Your task to perform on an android device: Play the latest video from the Wall Street Journal Image 0: 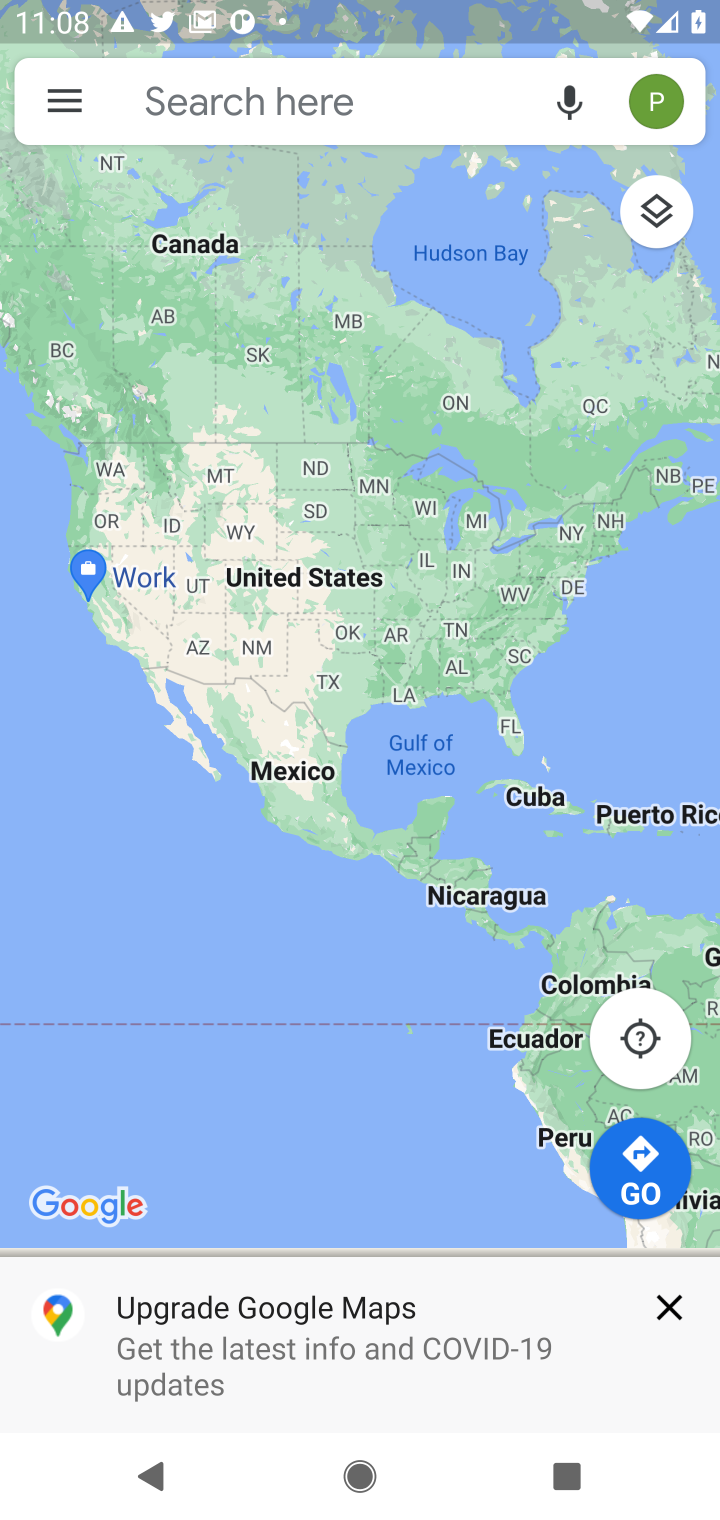
Step 0: press home button
Your task to perform on an android device: Play the latest video from the Wall Street Journal Image 1: 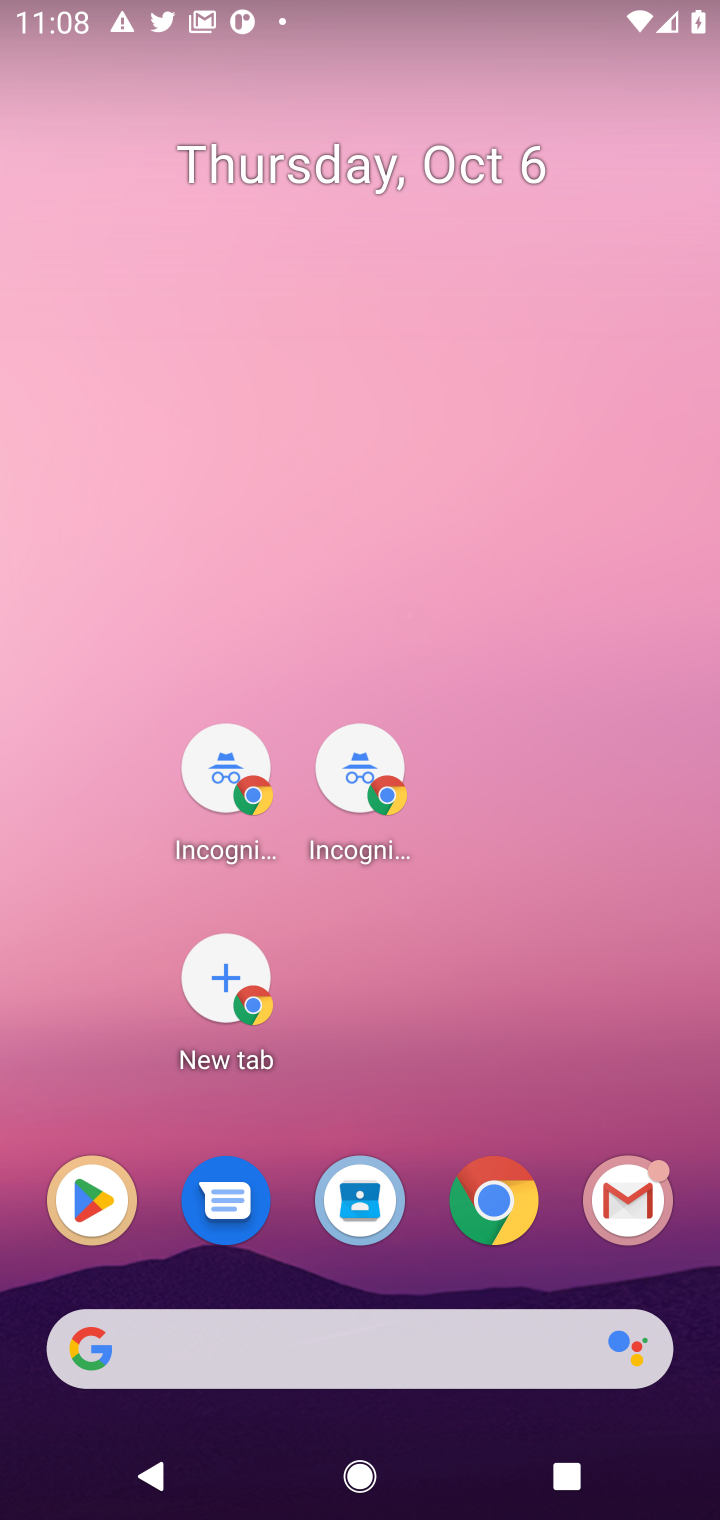
Step 1: click (479, 1209)
Your task to perform on an android device: Play the latest video from the Wall Street Journal Image 2: 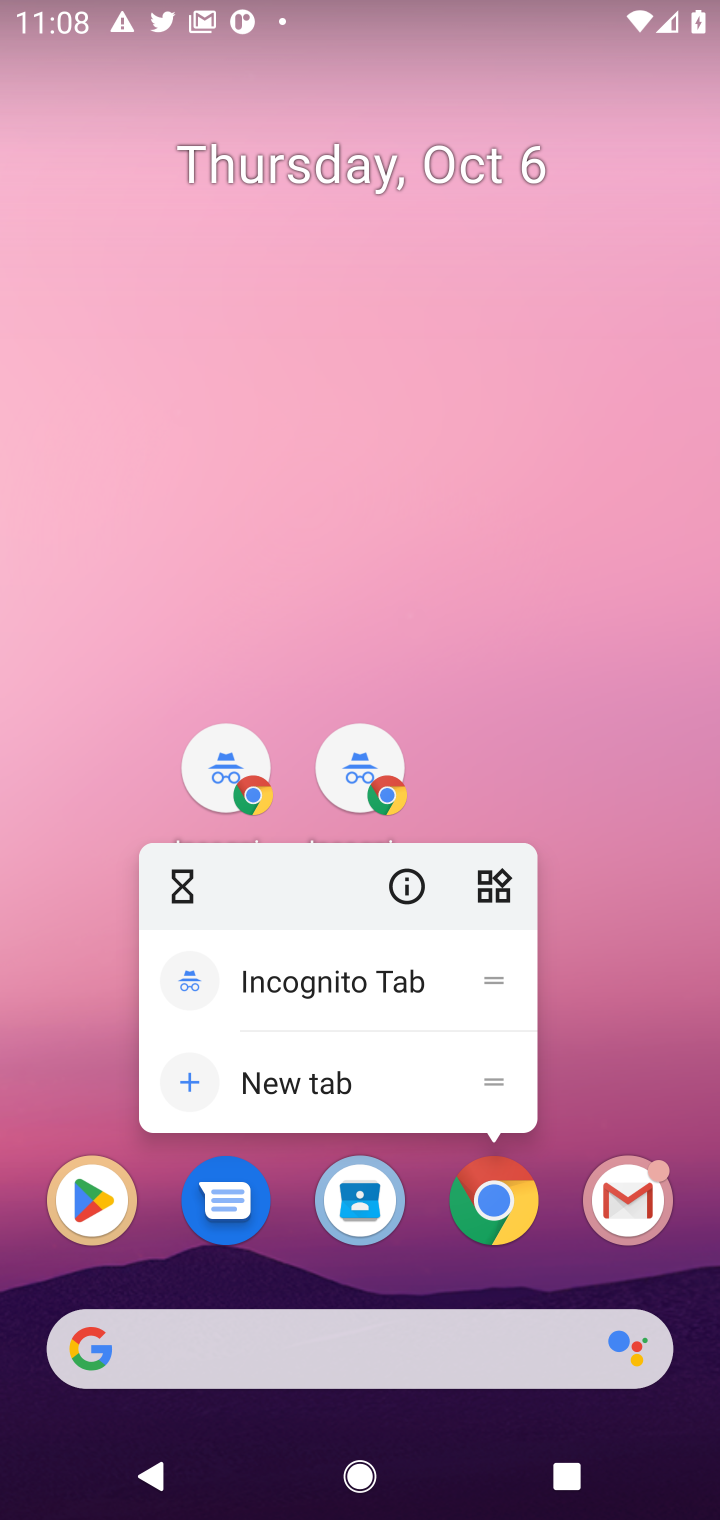
Step 2: press back button
Your task to perform on an android device: Play the latest video from the Wall Street Journal Image 3: 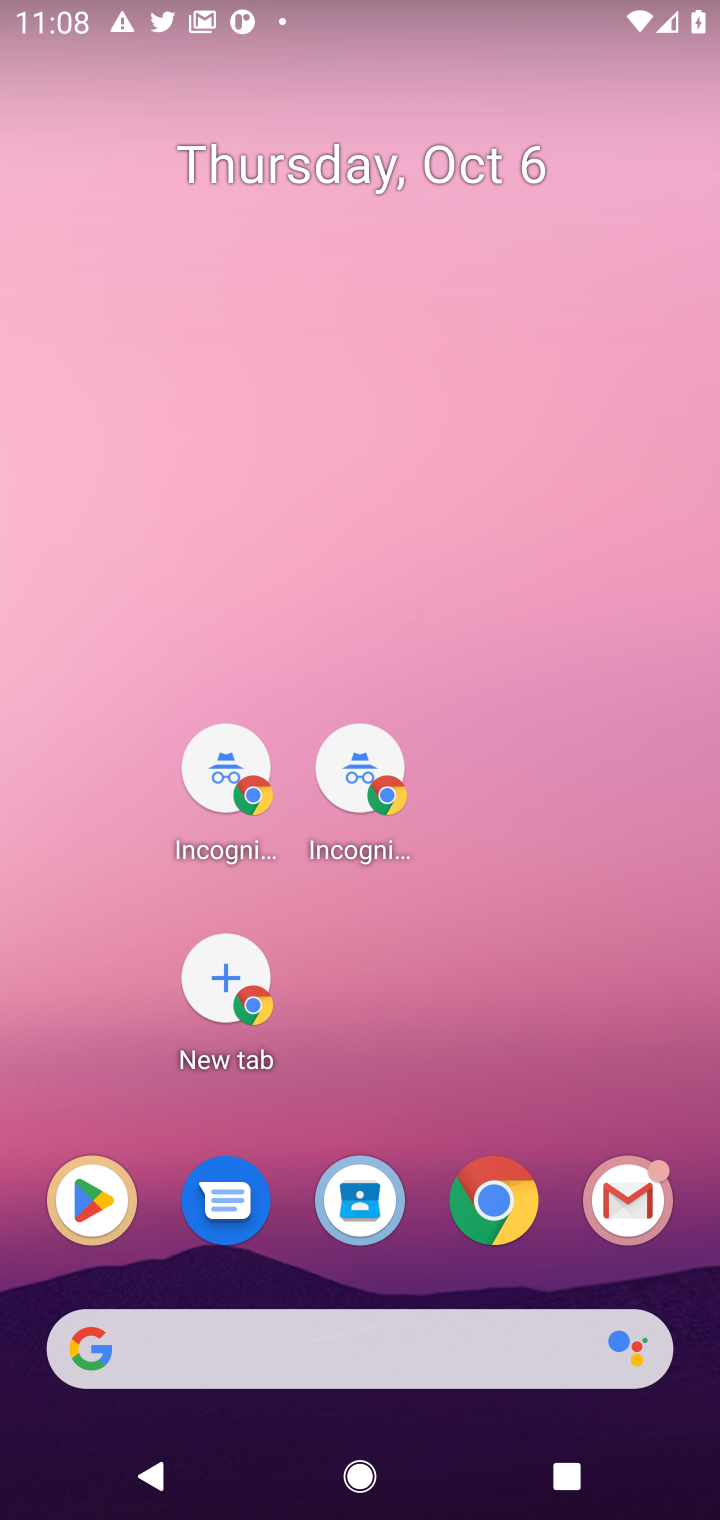
Step 3: press back button
Your task to perform on an android device: Play the latest video from the Wall Street Journal Image 4: 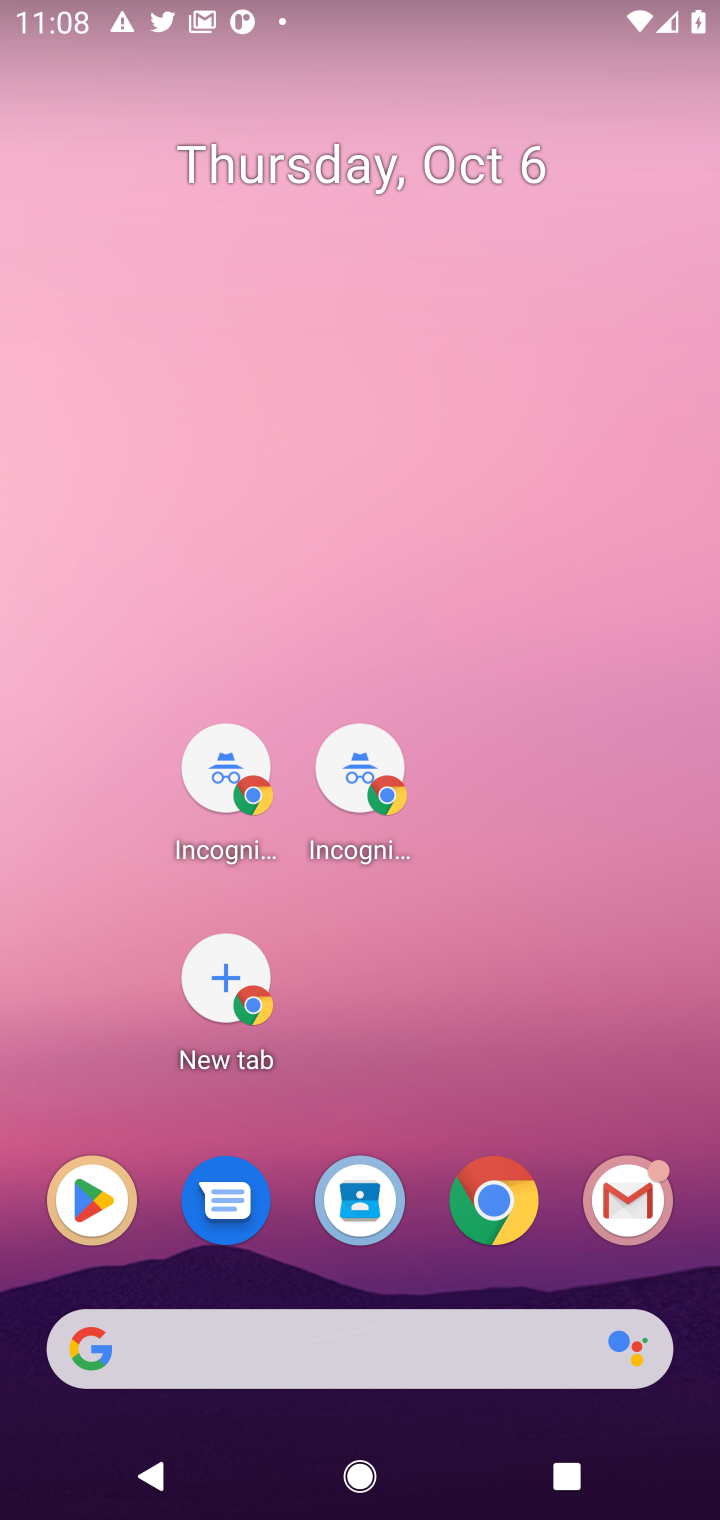
Step 4: press home button
Your task to perform on an android device: Play the latest video from the Wall Street Journal Image 5: 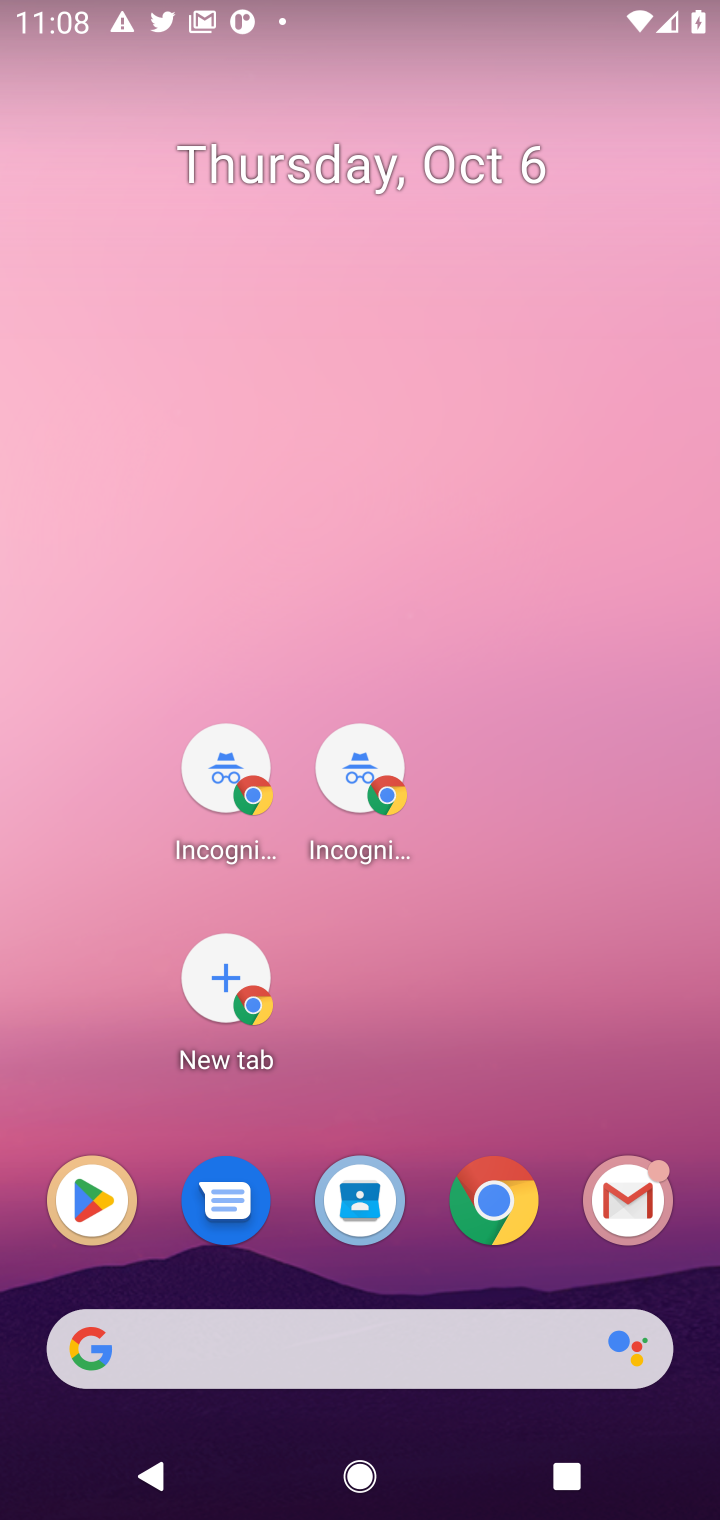
Step 5: click (517, 1223)
Your task to perform on an android device: Play the latest video from the Wall Street Journal Image 6: 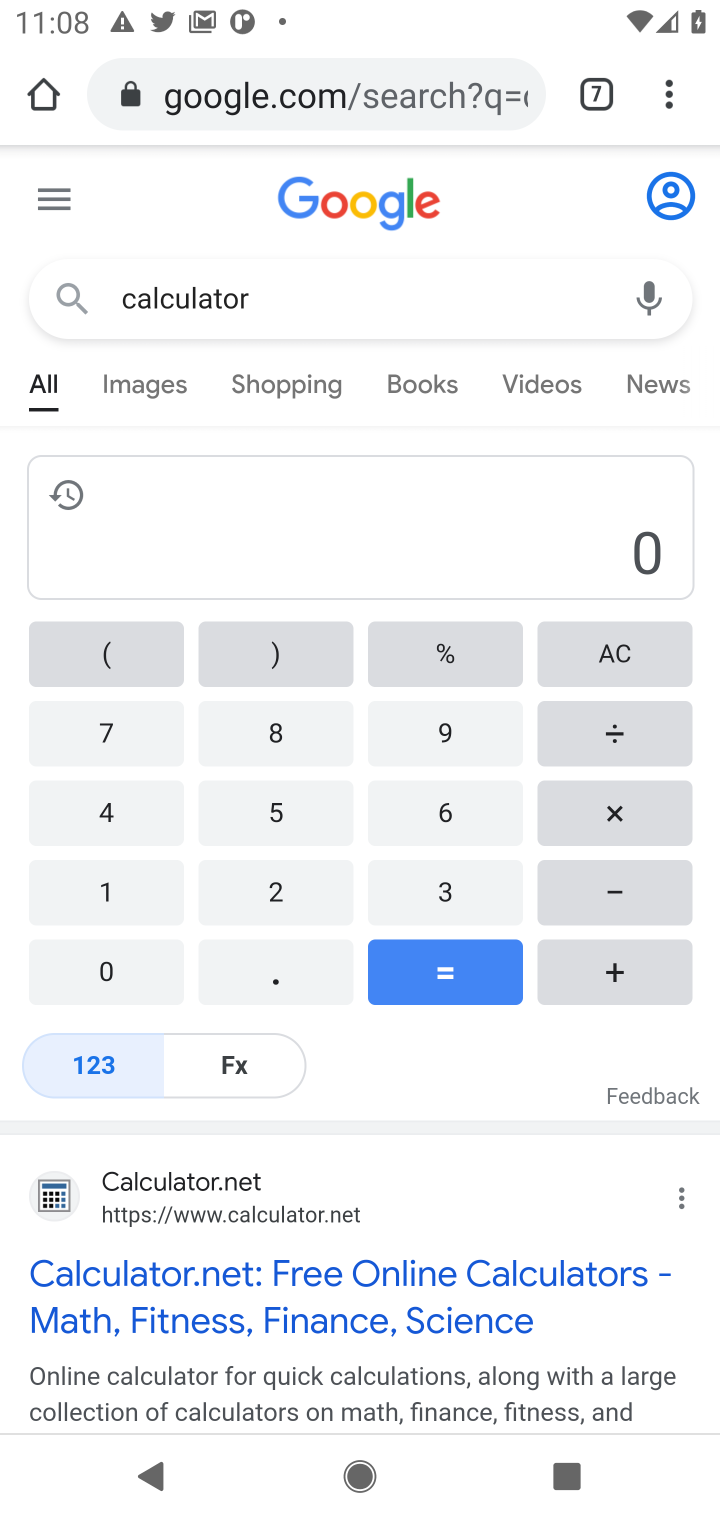
Step 6: click (402, 86)
Your task to perform on an android device: Play the latest video from the Wall Street Journal Image 7: 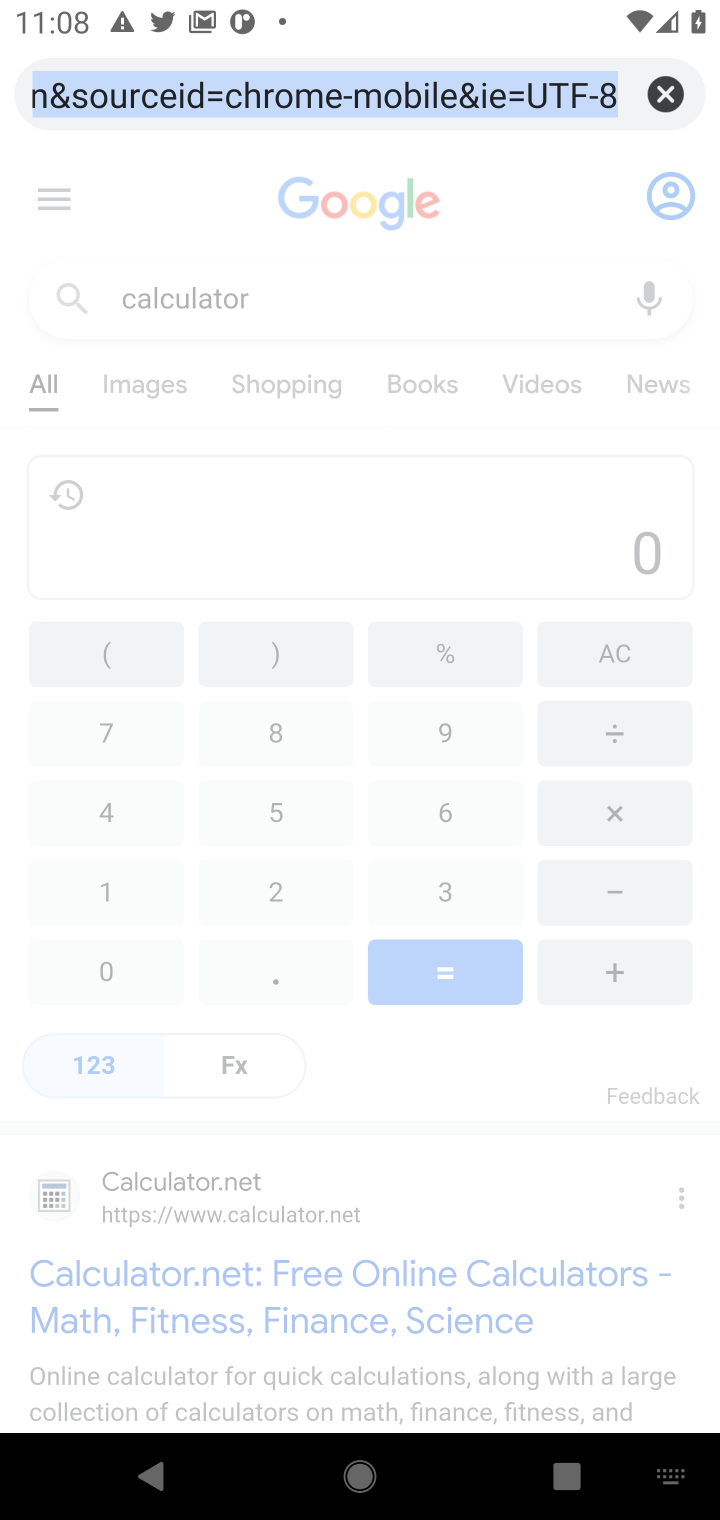
Step 7: click (657, 92)
Your task to perform on an android device: Play the latest video from the Wall Street Journal Image 8: 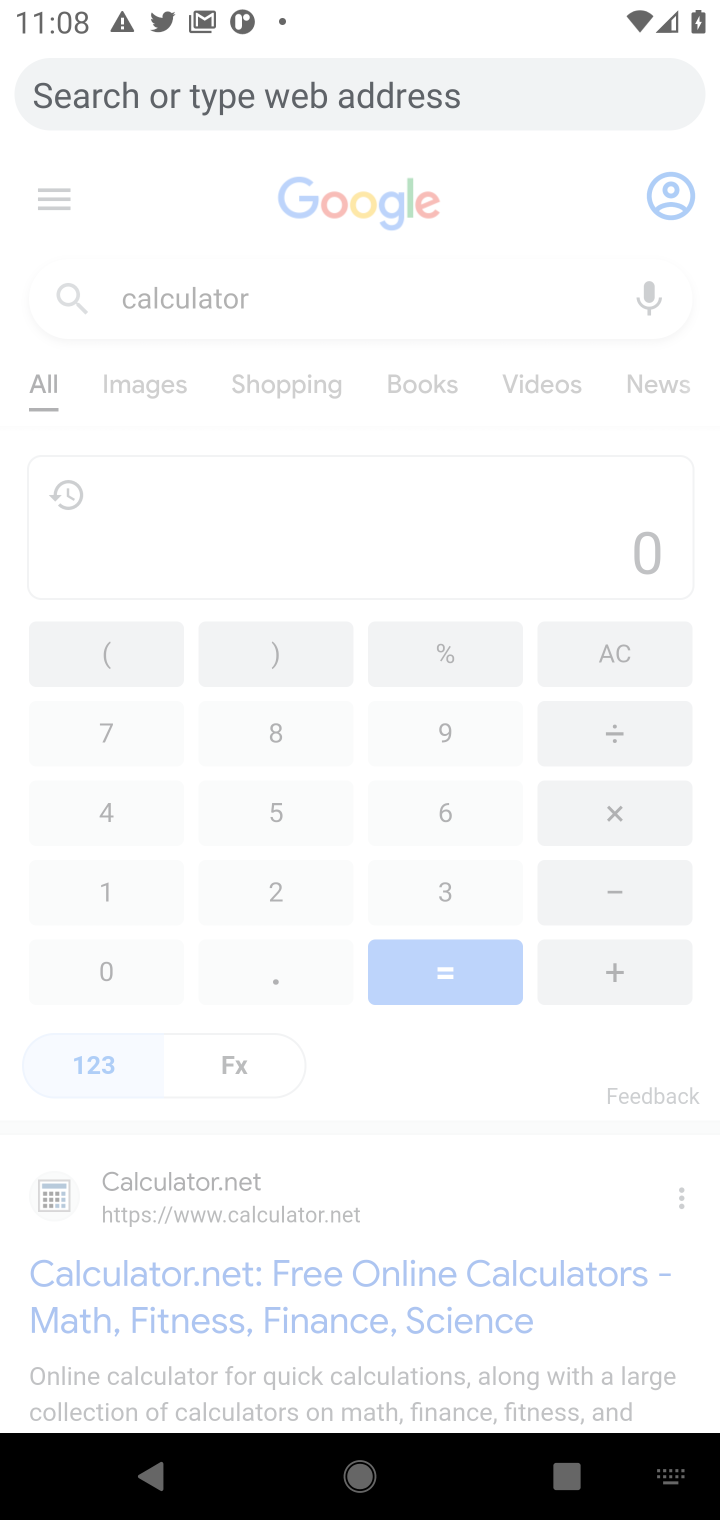
Step 8: type "wall street journal"
Your task to perform on an android device: Play the latest video from the Wall Street Journal Image 9: 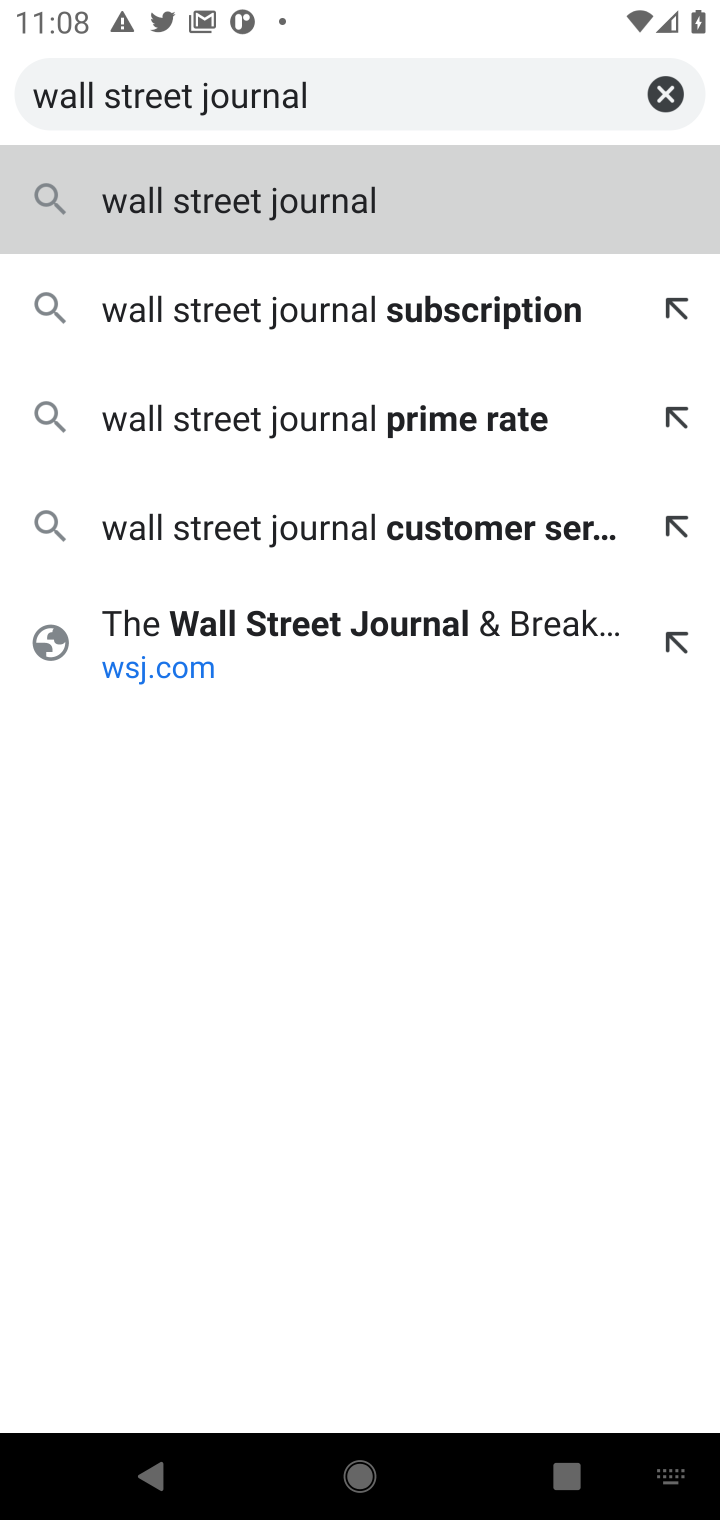
Step 9: type ""
Your task to perform on an android device: Play the latest video from the Wall Street Journal Image 10: 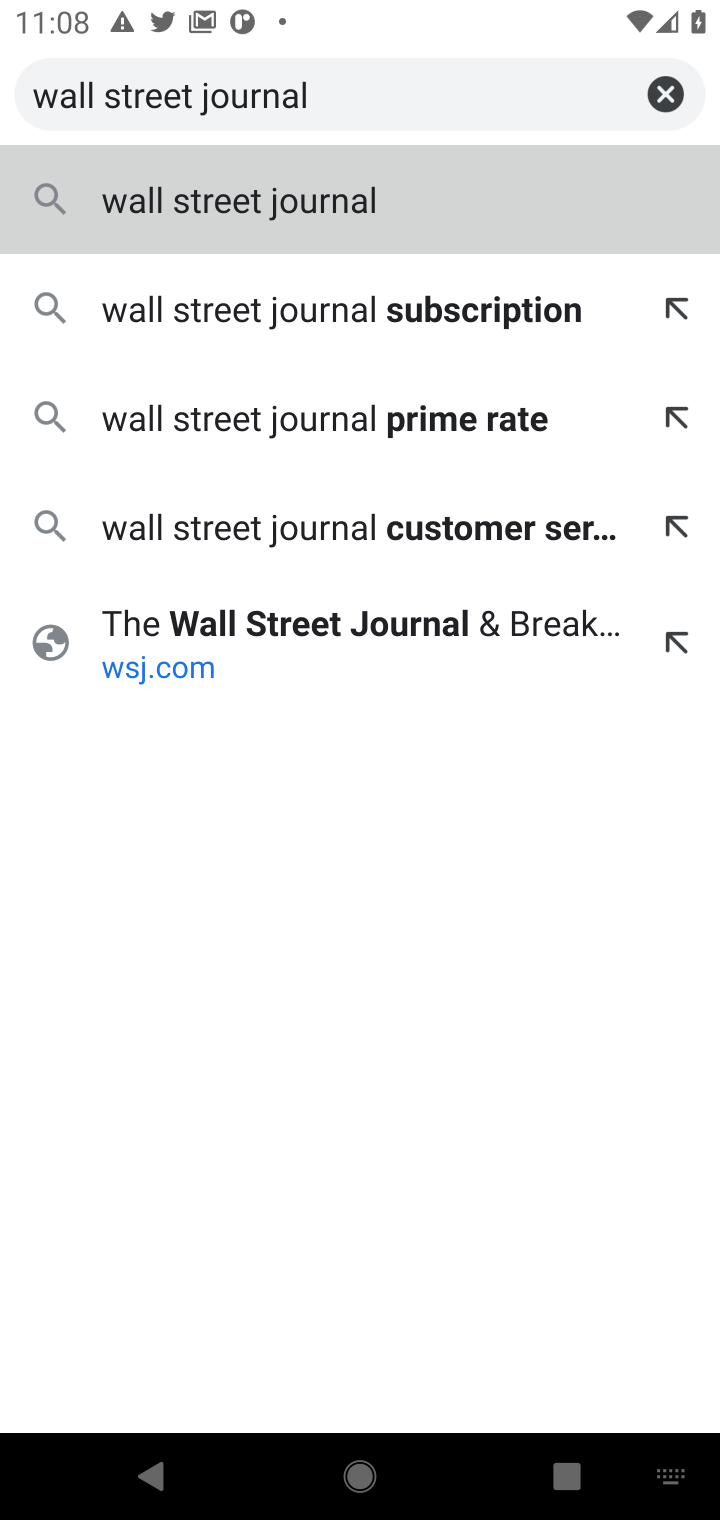
Step 10: type "wall street journal"
Your task to perform on an android device: Play the latest video from the Wall Street Journal Image 11: 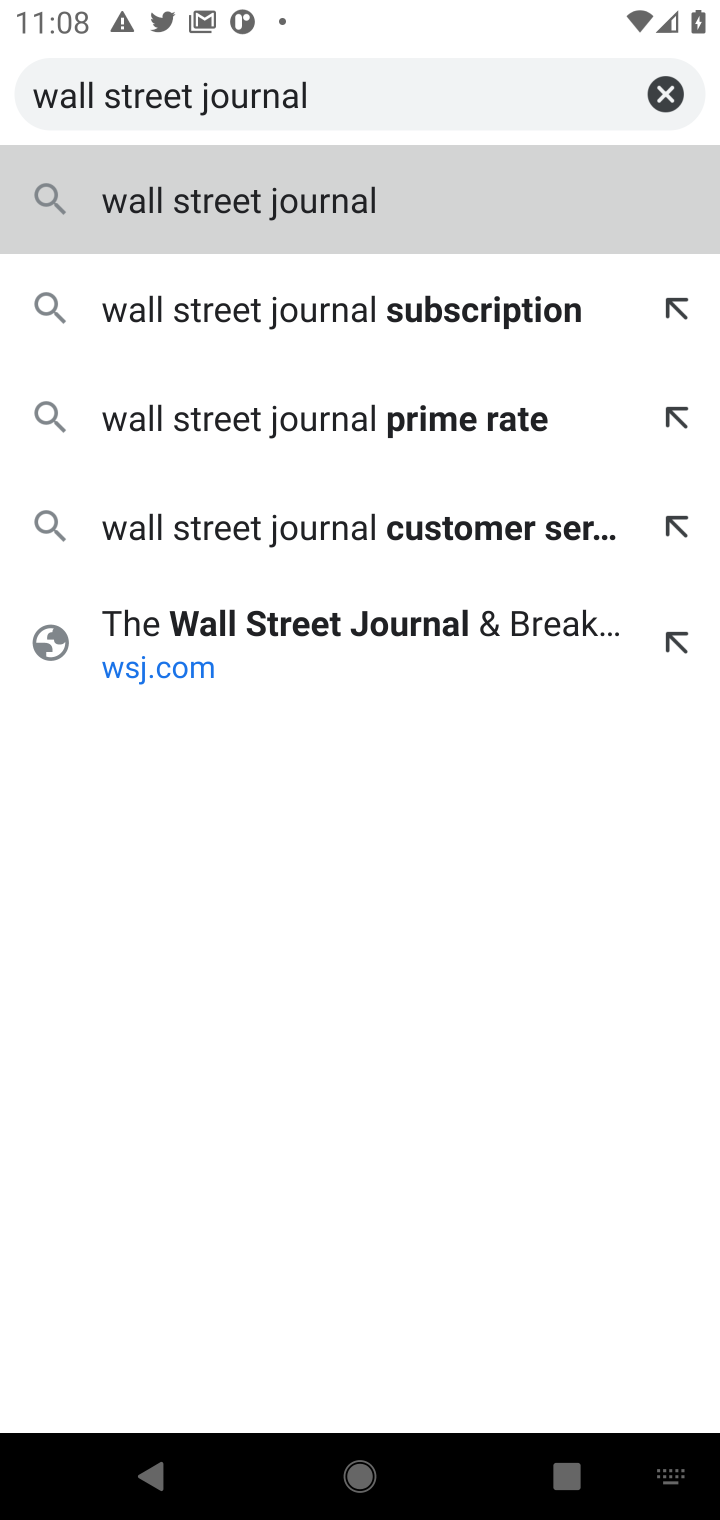
Step 11: click (235, 620)
Your task to perform on an android device: Play the latest video from the Wall Street Journal Image 12: 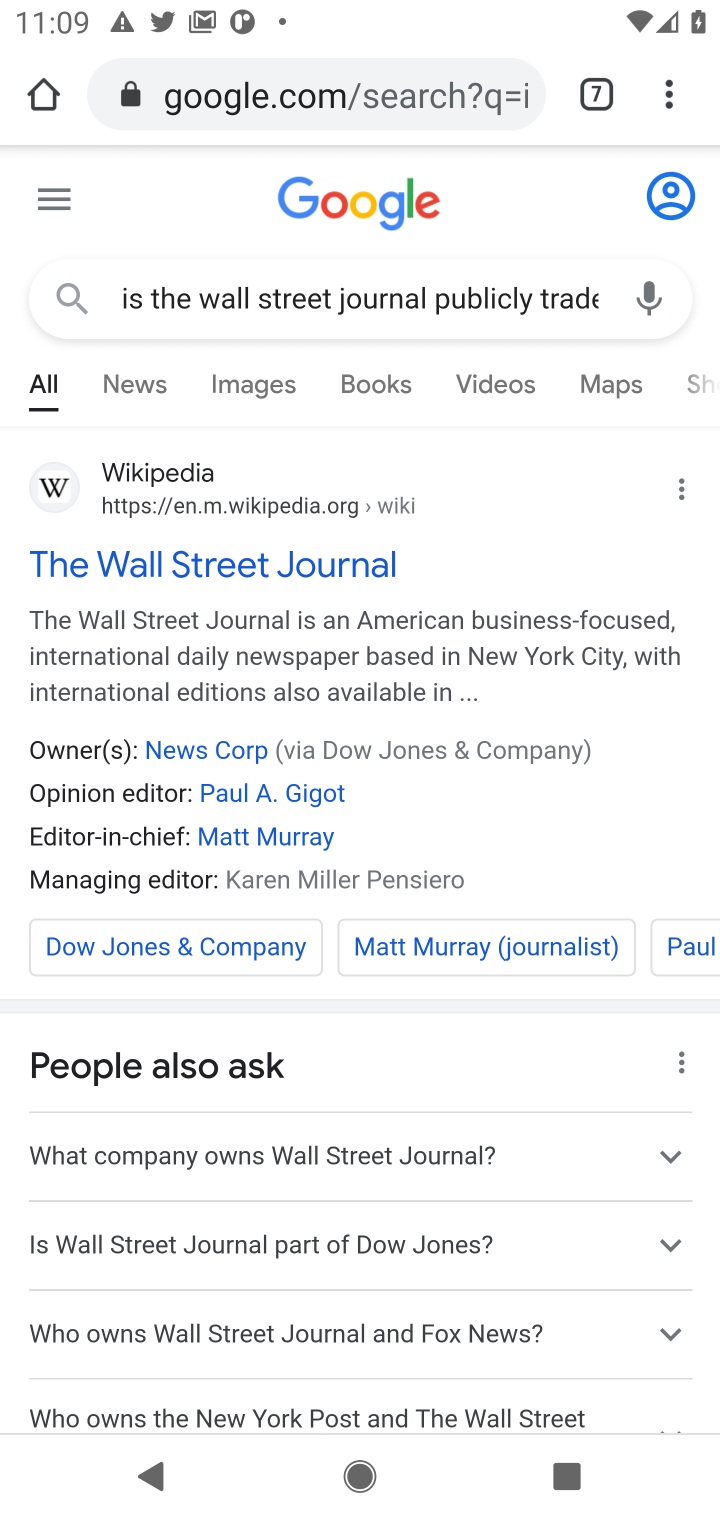
Step 12: click (149, 546)
Your task to perform on an android device: Play the latest video from the Wall Street Journal Image 13: 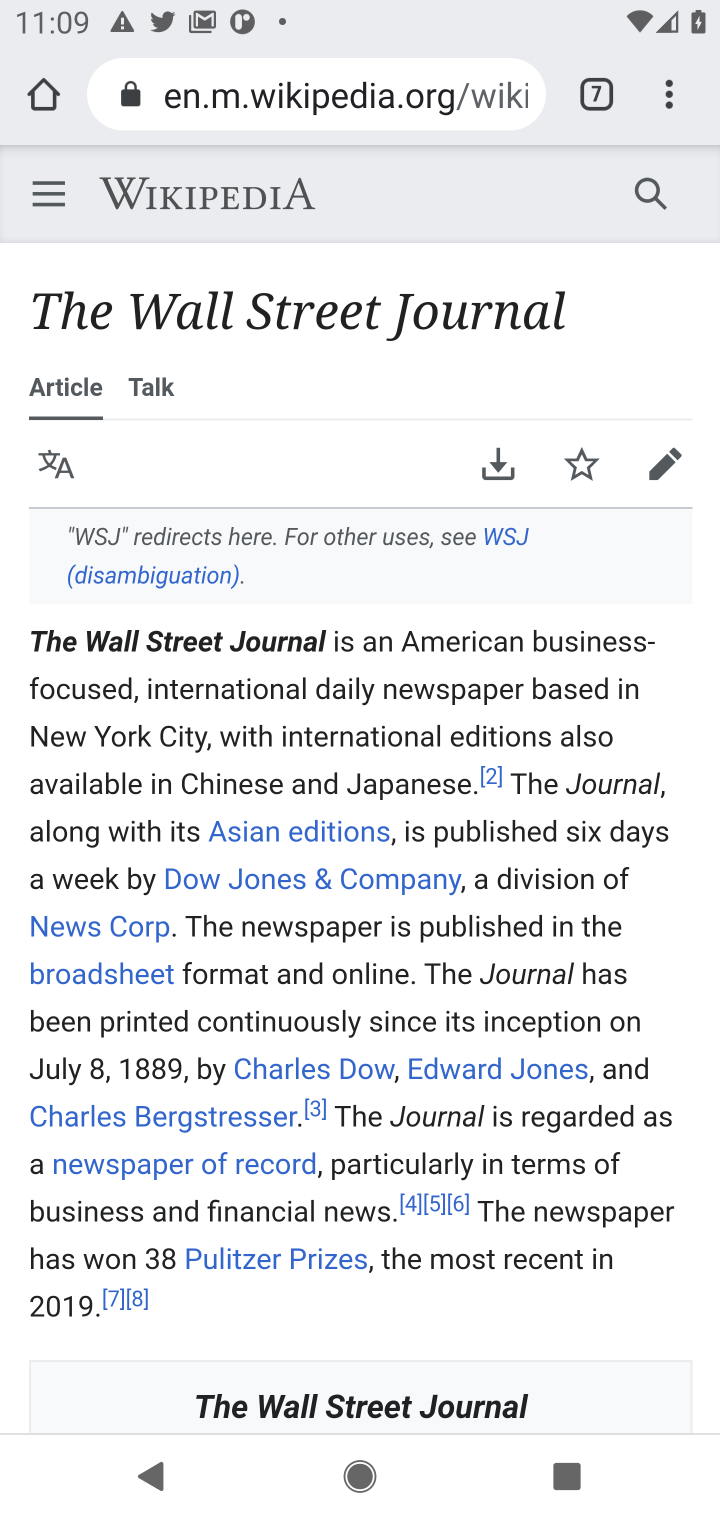
Step 13: drag from (399, 1294) to (333, 731)
Your task to perform on an android device: Play the latest video from the Wall Street Journal Image 14: 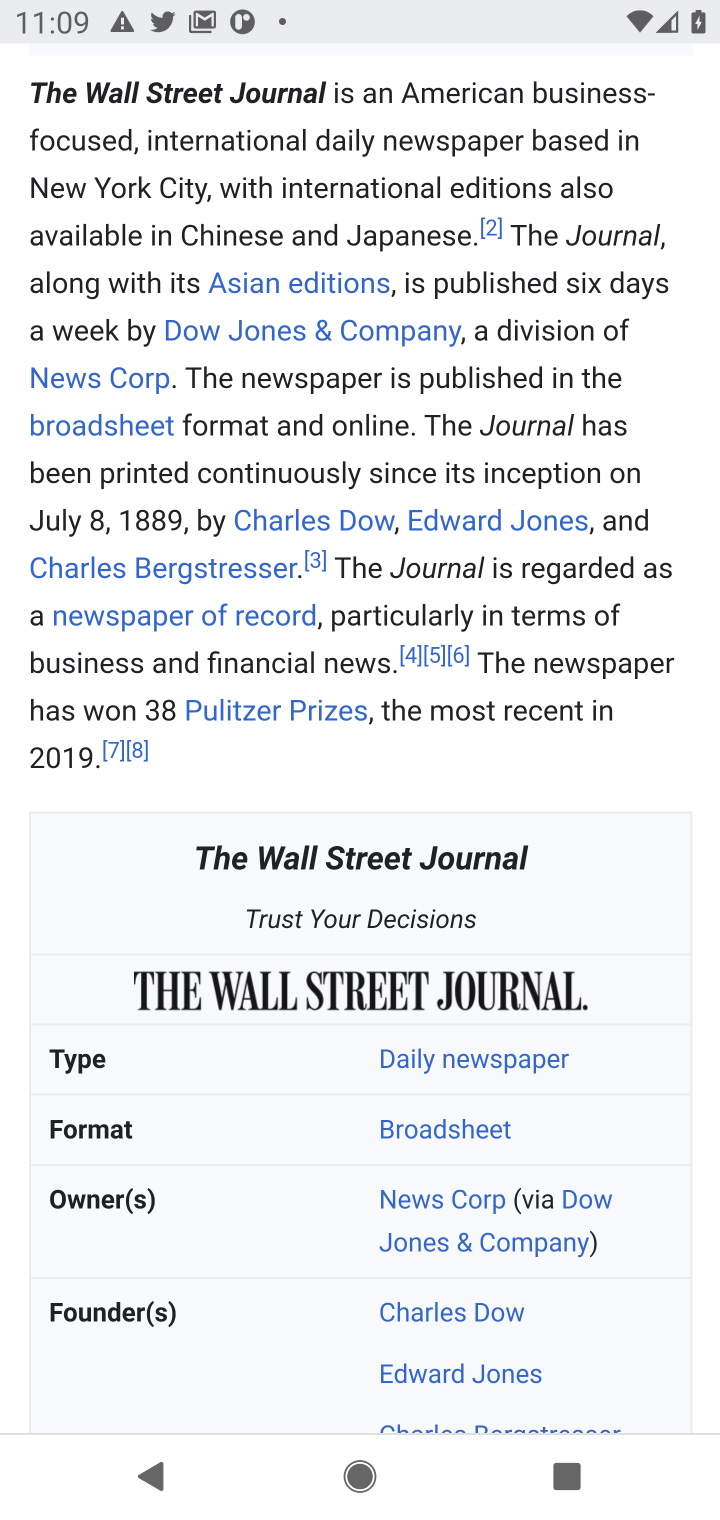
Step 14: drag from (243, 1311) to (168, 555)
Your task to perform on an android device: Play the latest video from the Wall Street Journal Image 15: 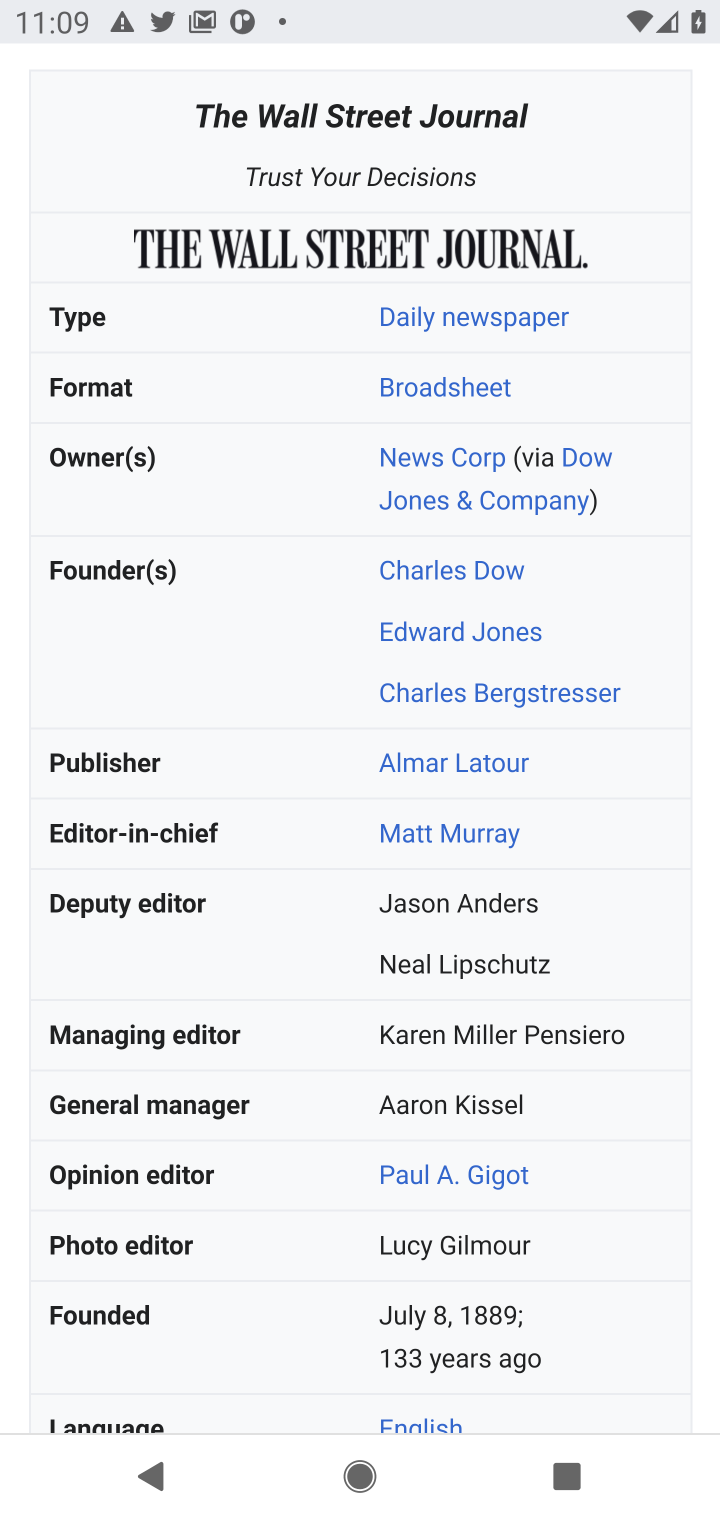
Step 15: drag from (238, 1256) to (191, 755)
Your task to perform on an android device: Play the latest video from the Wall Street Journal Image 16: 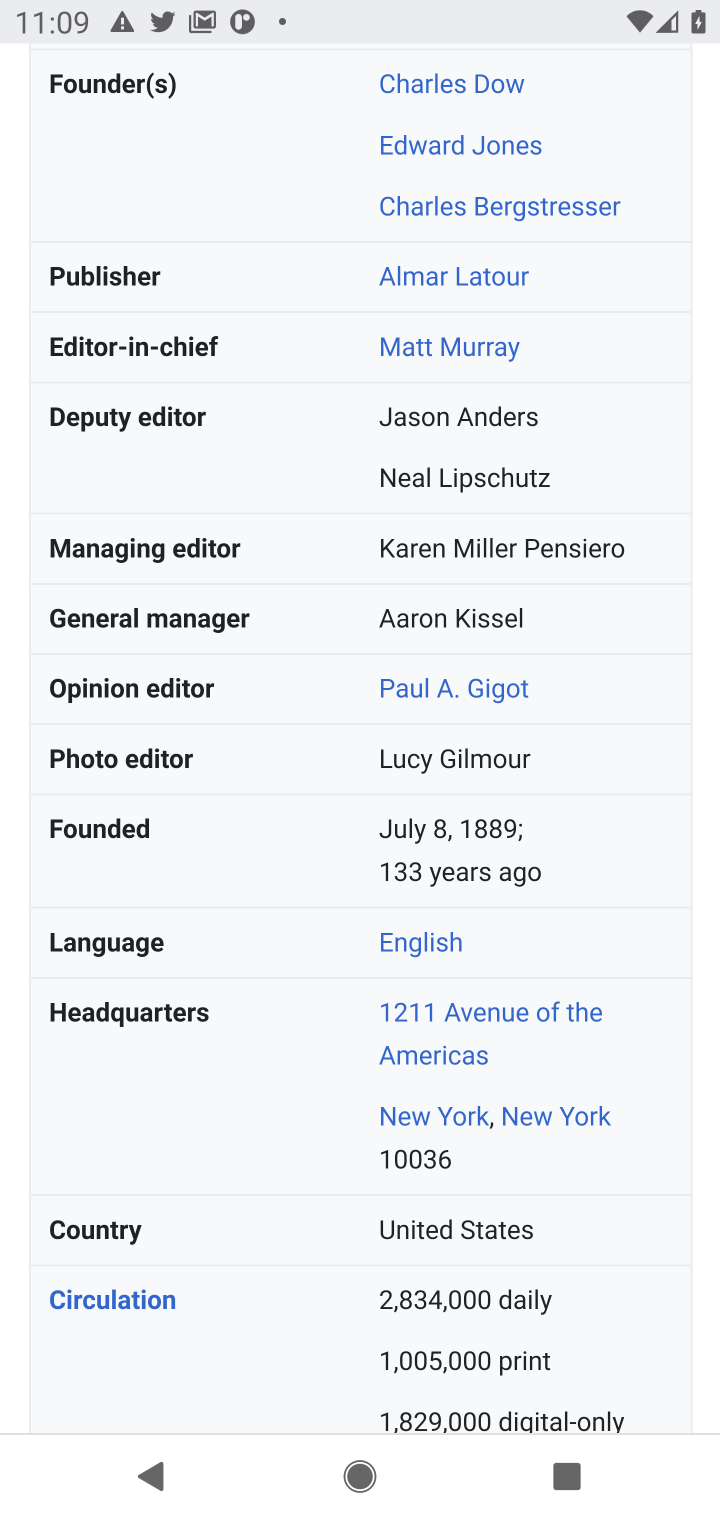
Step 16: drag from (312, 1312) to (238, 669)
Your task to perform on an android device: Play the latest video from the Wall Street Journal Image 17: 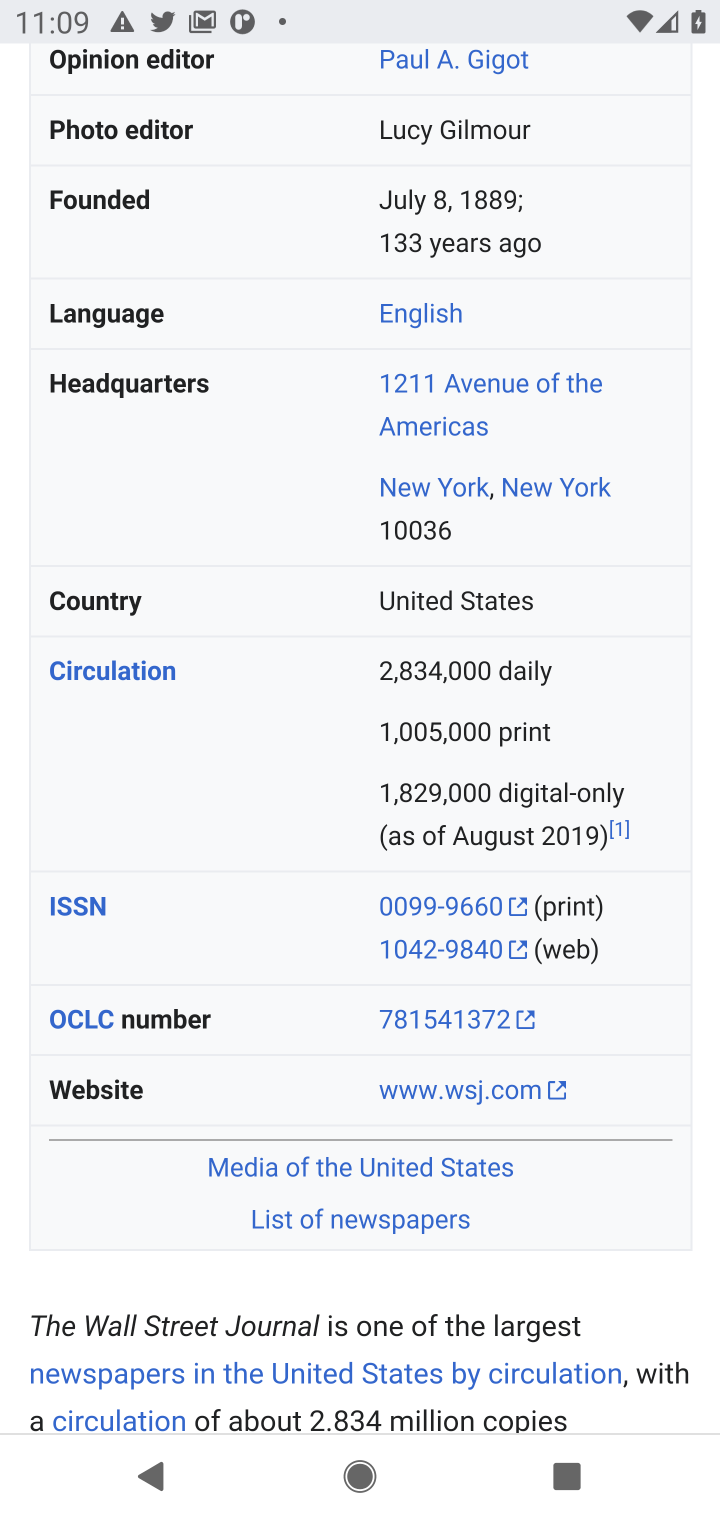
Step 17: drag from (396, 1192) to (366, 602)
Your task to perform on an android device: Play the latest video from the Wall Street Journal Image 18: 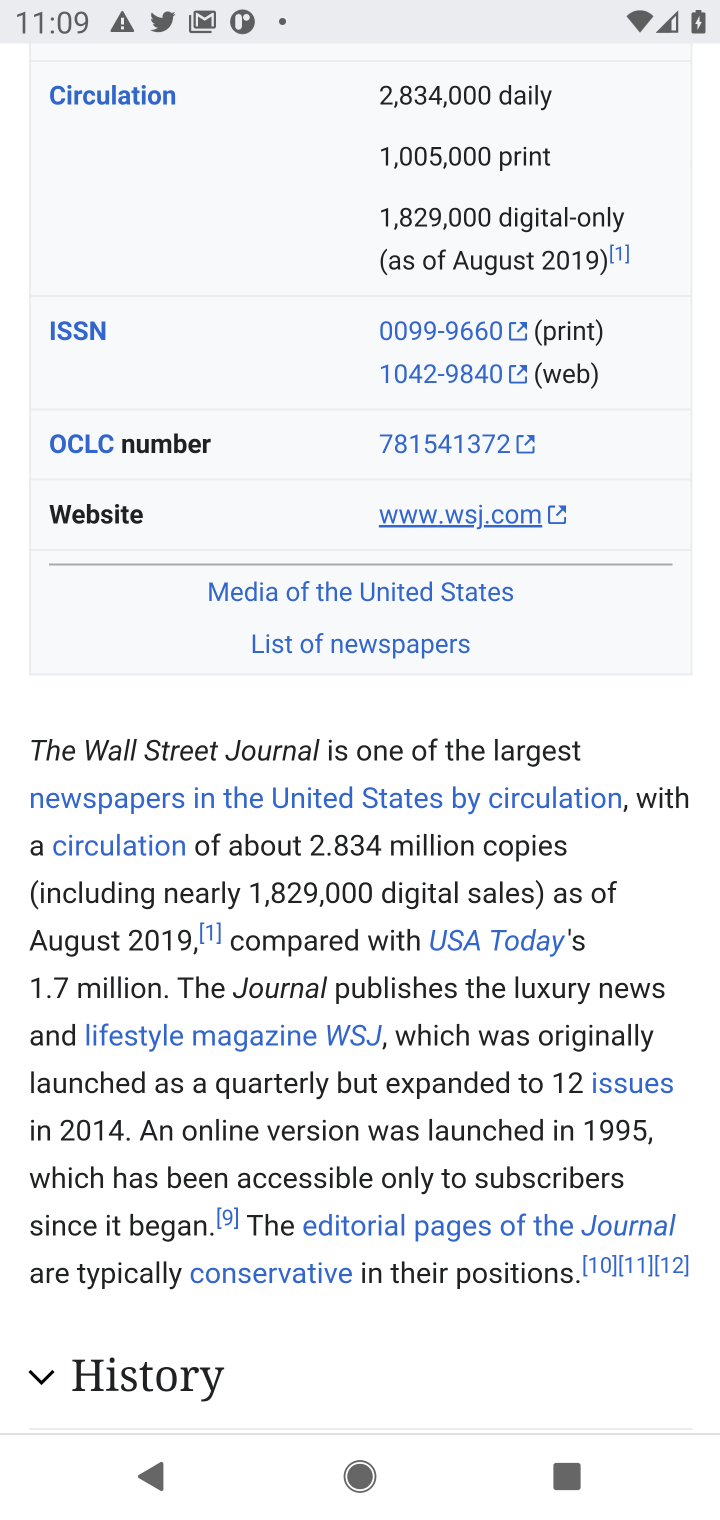
Step 18: drag from (287, 1217) to (231, 630)
Your task to perform on an android device: Play the latest video from the Wall Street Journal Image 19: 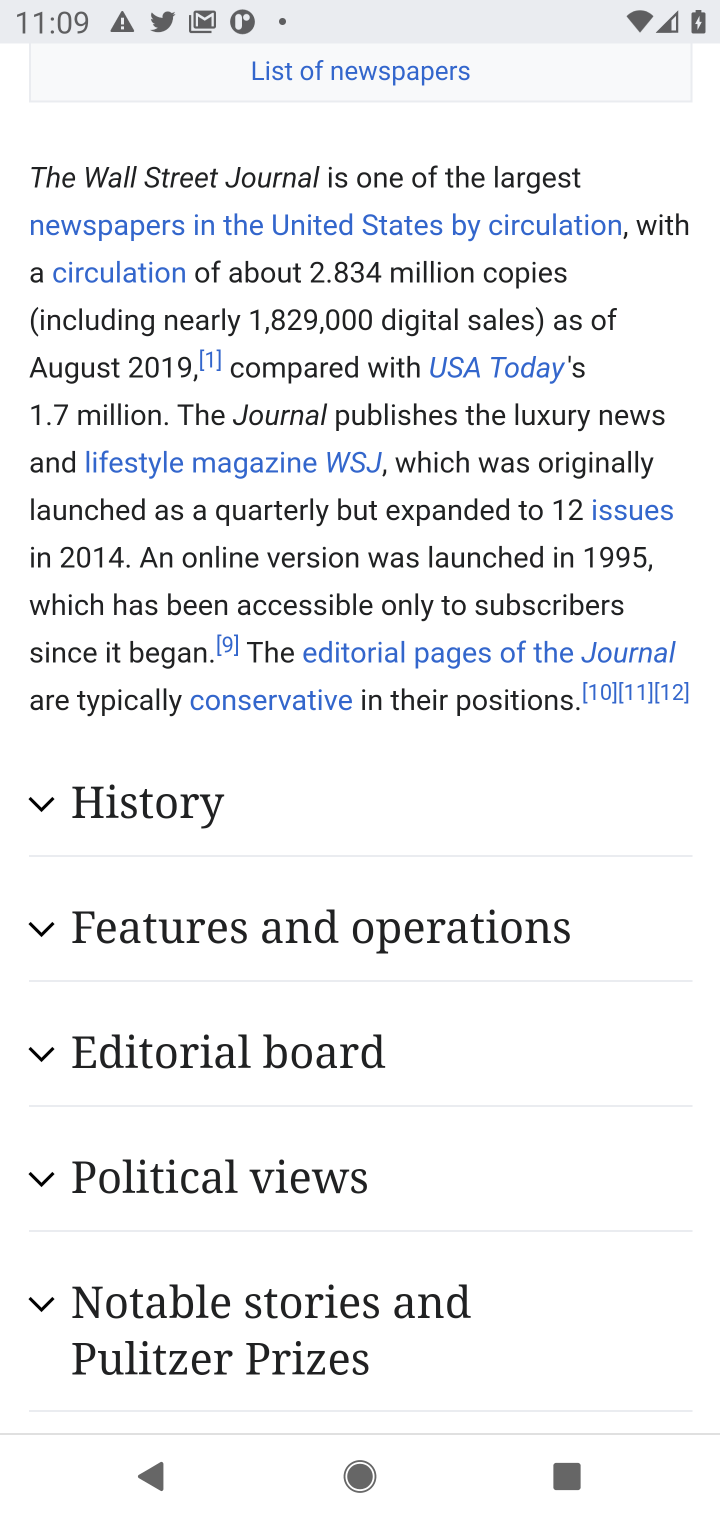
Step 19: drag from (289, 1107) to (323, 557)
Your task to perform on an android device: Play the latest video from the Wall Street Journal Image 20: 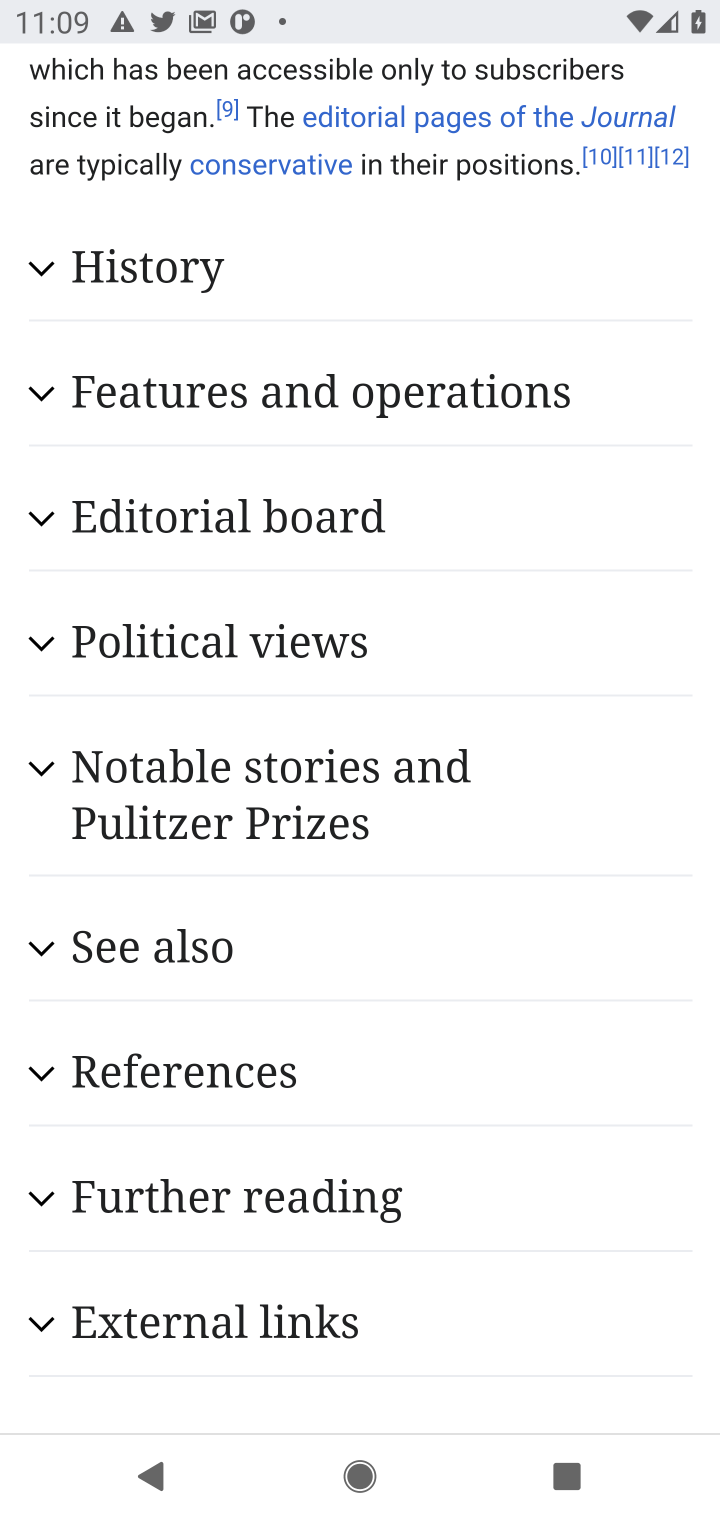
Step 20: drag from (392, 1142) to (353, 517)
Your task to perform on an android device: Play the latest video from the Wall Street Journal Image 21: 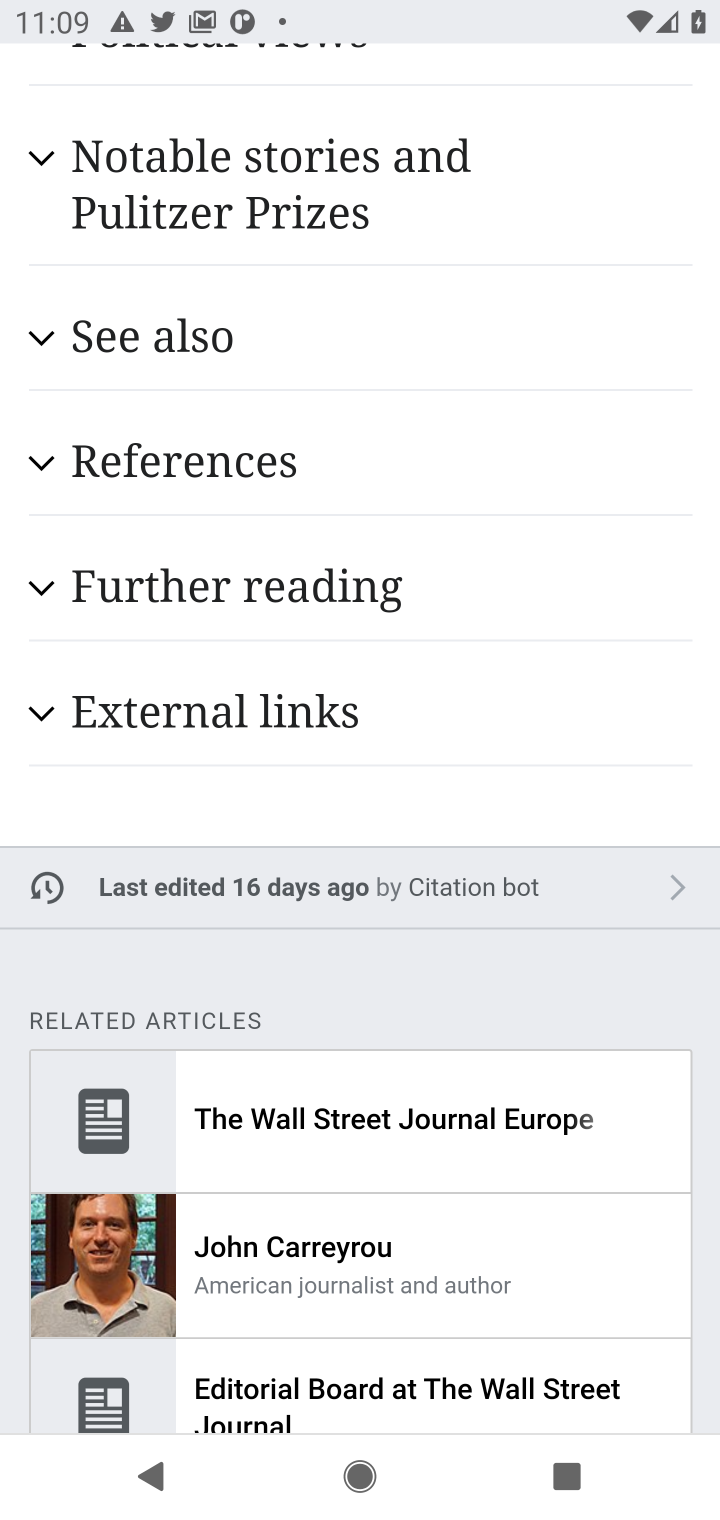
Step 21: drag from (328, 664) to (336, 1358)
Your task to perform on an android device: Play the latest video from the Wall Street Journal Image 22: 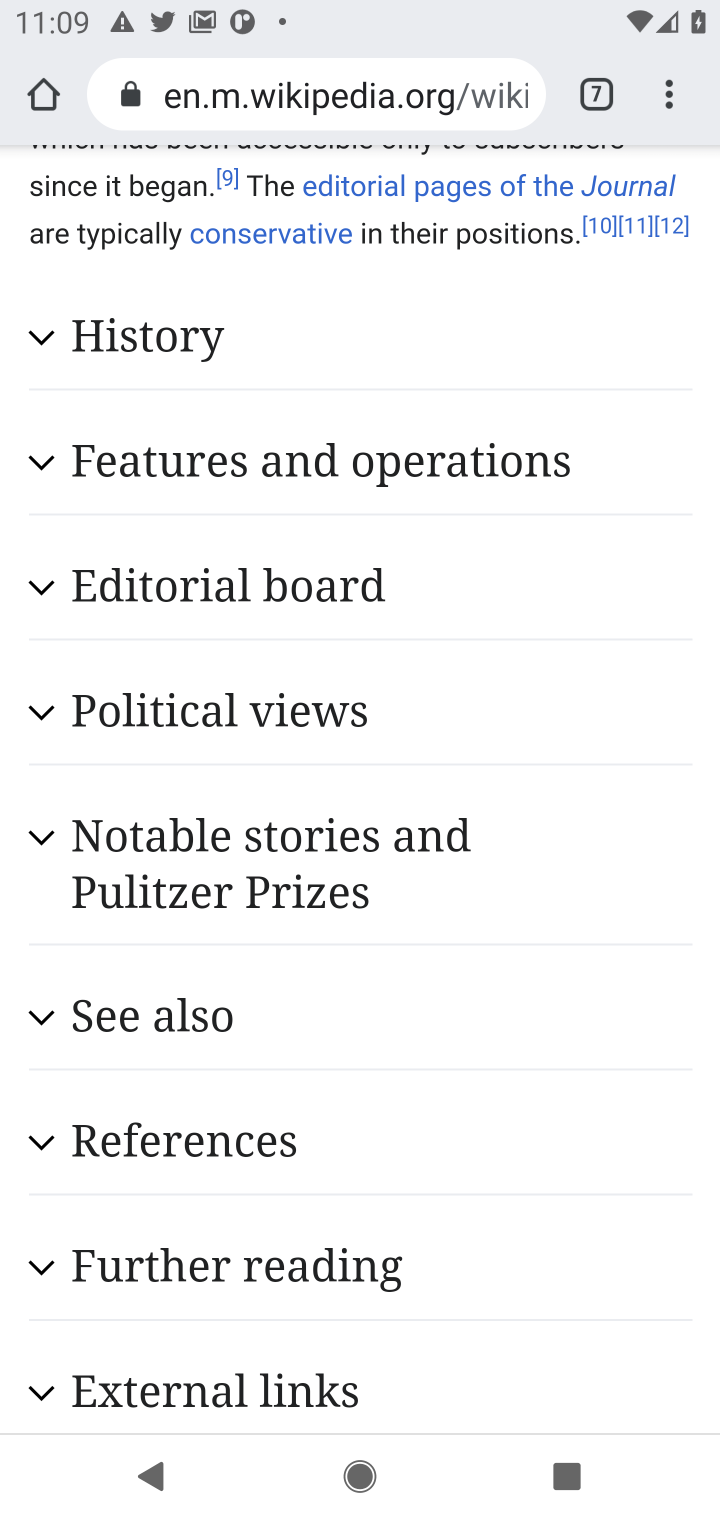
Step 22: drag from (341, 428) to (390, 1216)
Your task to perform on an android device: Play the latest video from the Wall Street Journal Image 23: 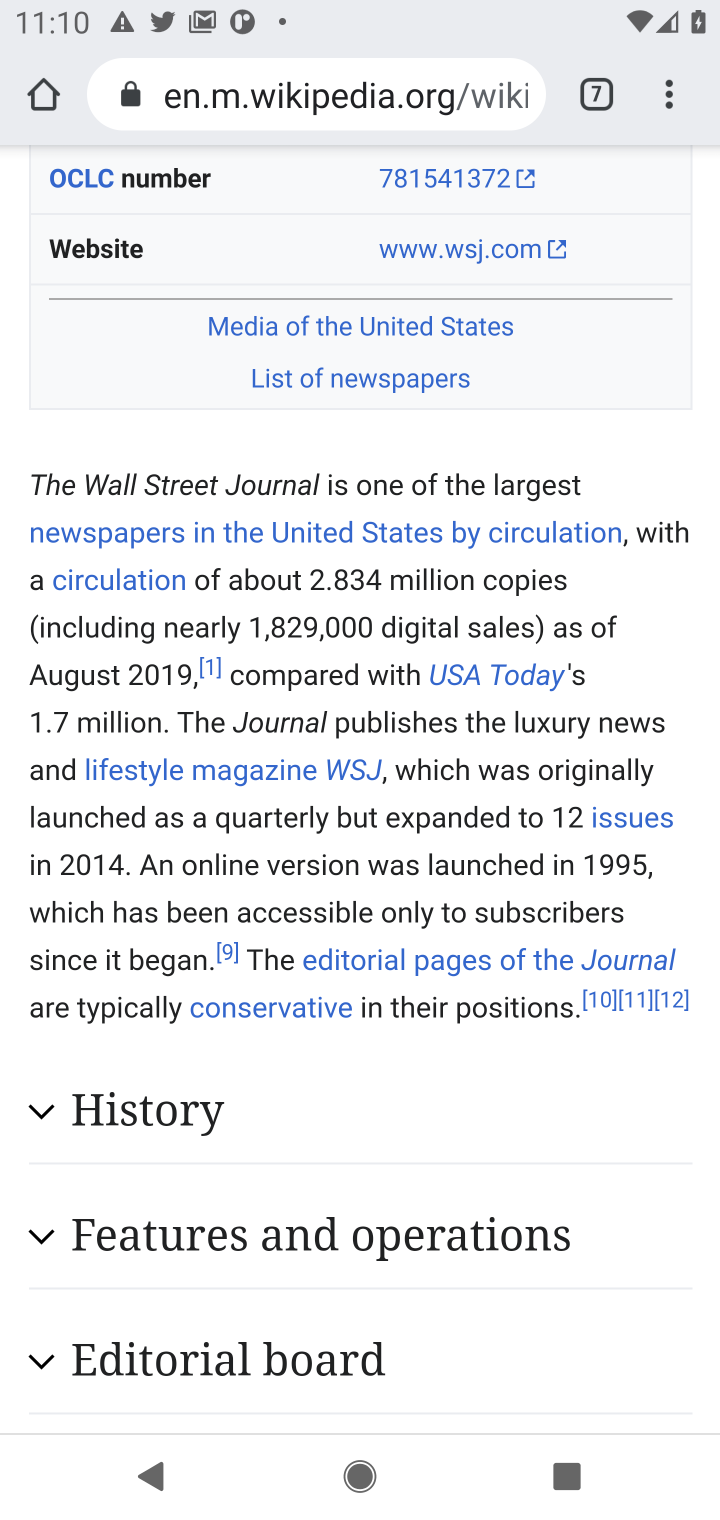
Step 23: drag from (421, 661) to (497, 1277)
Your task to perform on an android device: Play the latest video from the Wall Street Journal Image 24: 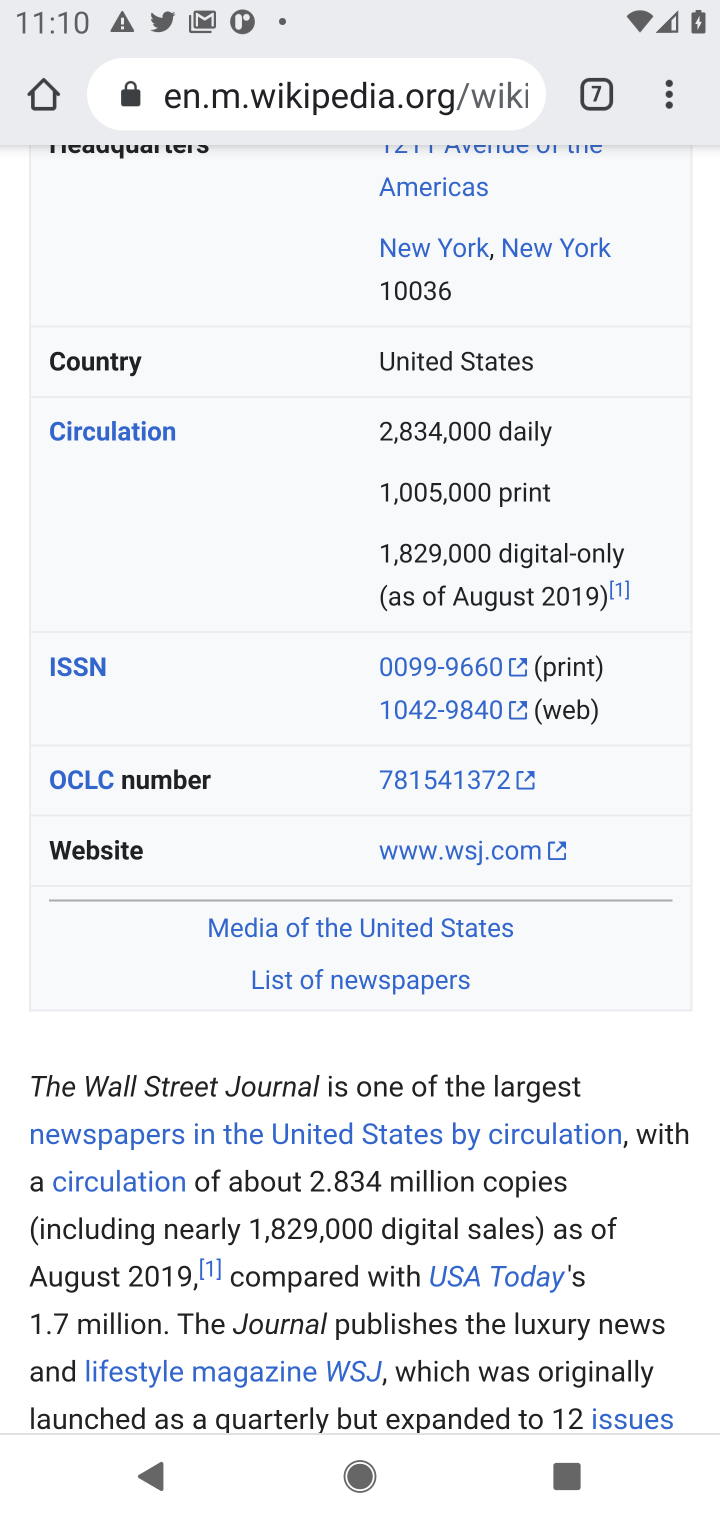
Step 24: drag from (239, 689) to (279, 1117)
Your task to perform on an android device: Play the latest video from the Wall Street Journal Image 25: 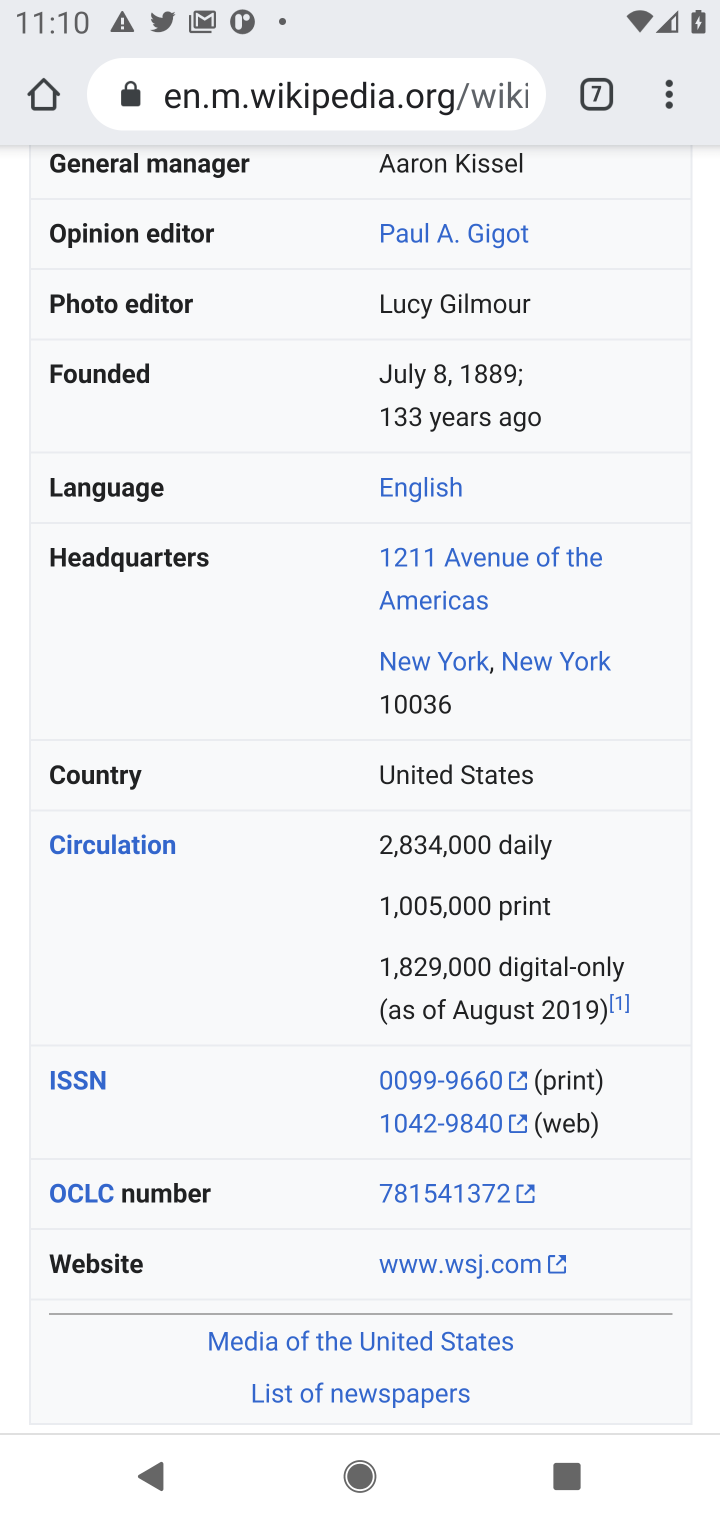
Step 25: drag from (98, 259) to (247, 1425)
Your task to perform on an android device: Play the latest video from the Wall Street Journal Image 26: 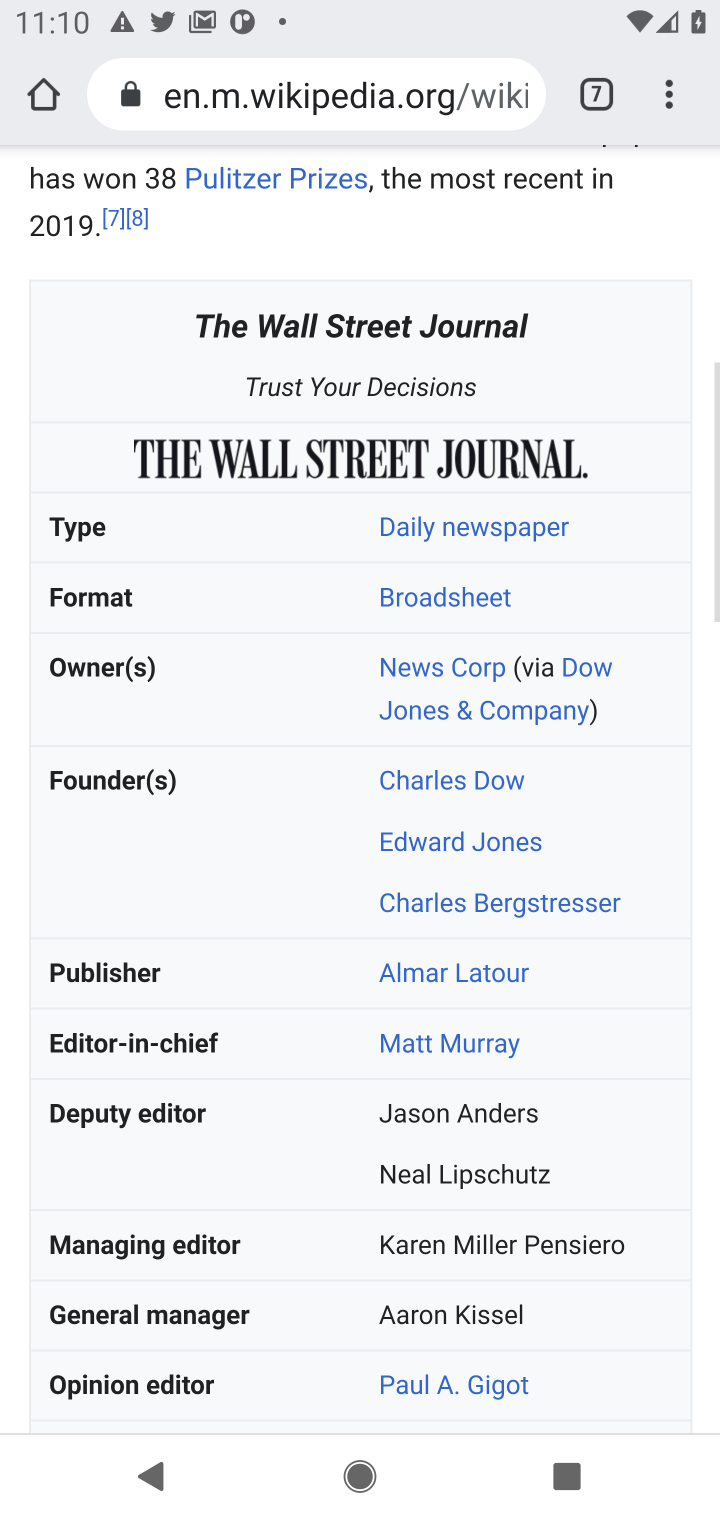
Step 26: drag from (252, 567) to (258, 1225)
Your task to perform on an android device: Play the latest video from the Wall Street Journal Image 27: 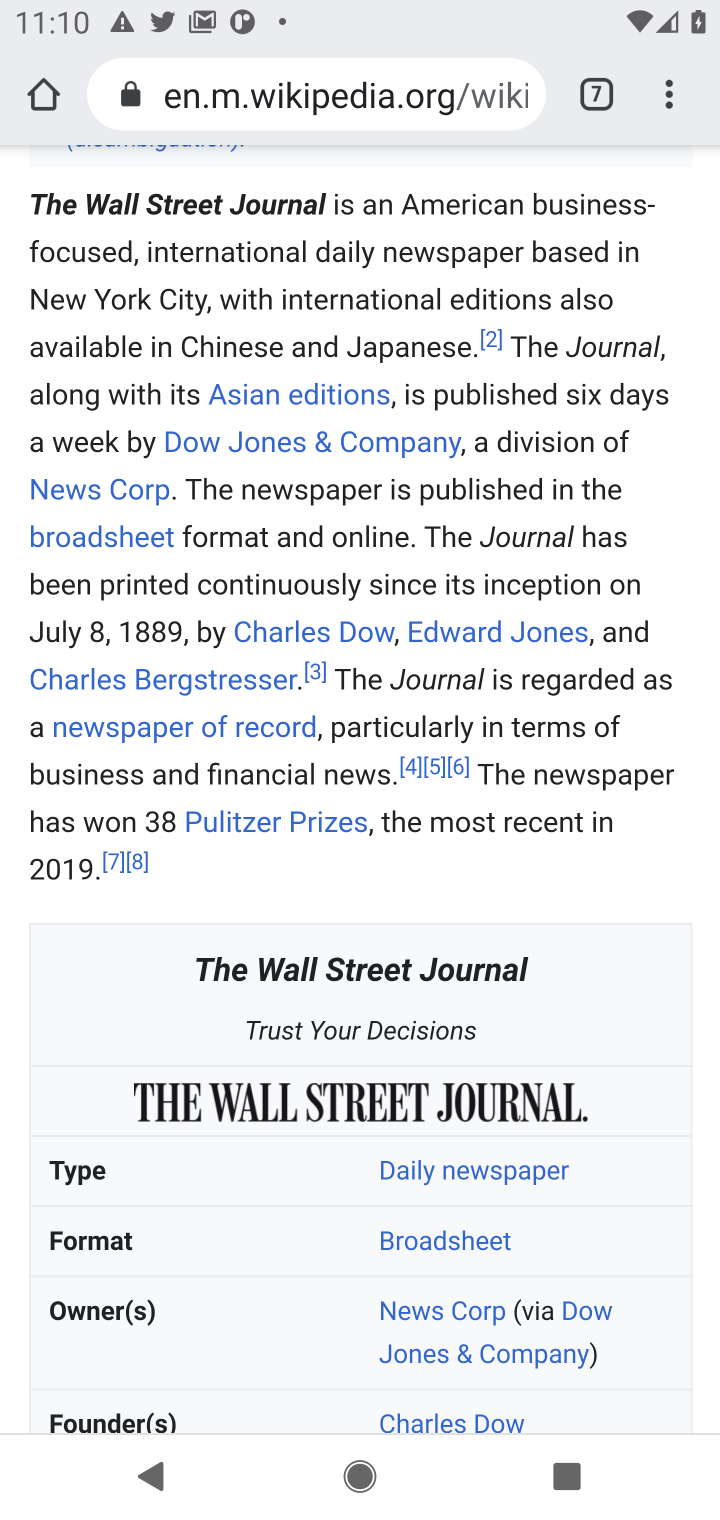
Step 27: drag from (277, 1368) to (290, 642)
Your task to perform on an android device: Play the latest video from the Wall Street Journal Image 28: 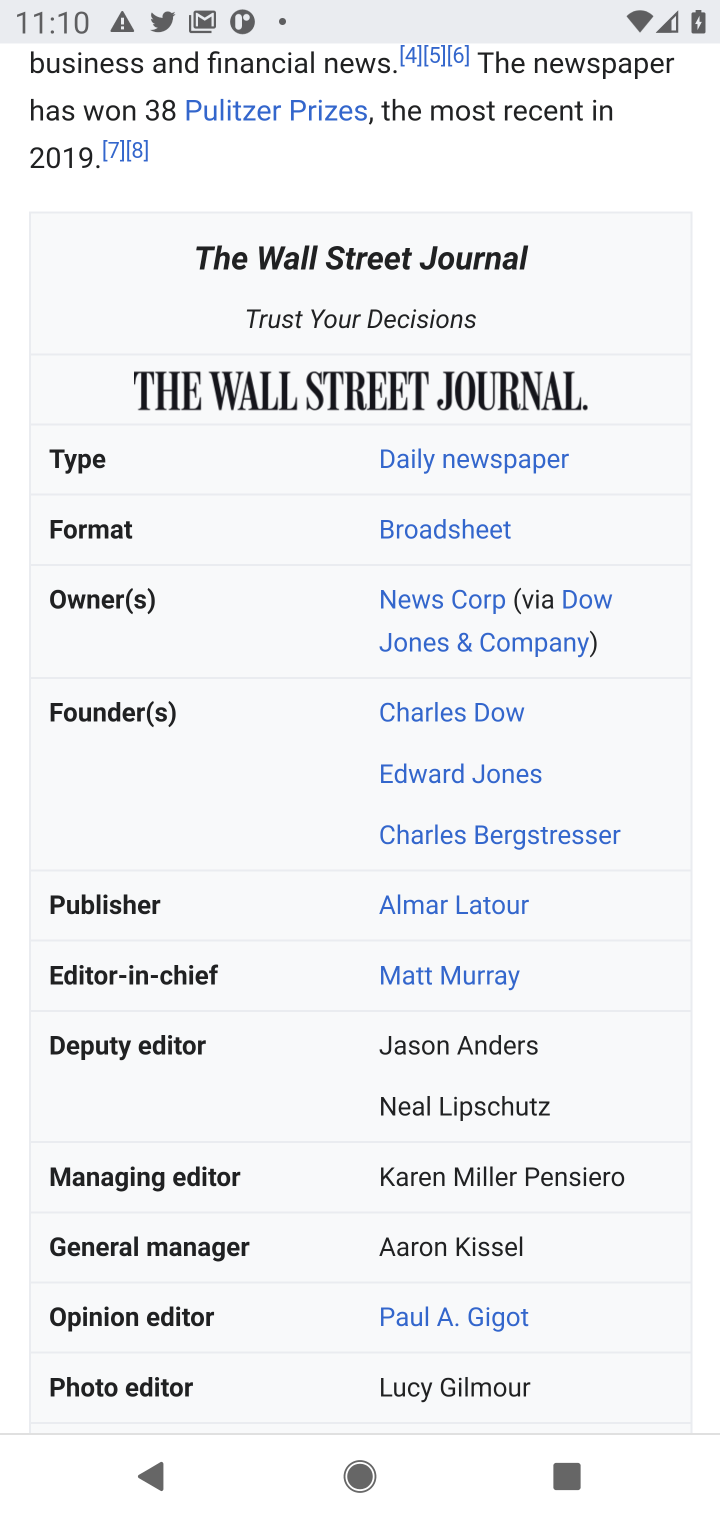
Step 28: drag from (229, 1246) to (368, 493)
Your task to perform on an android device: Play the latest video from the Wall Street Journal Image 29: 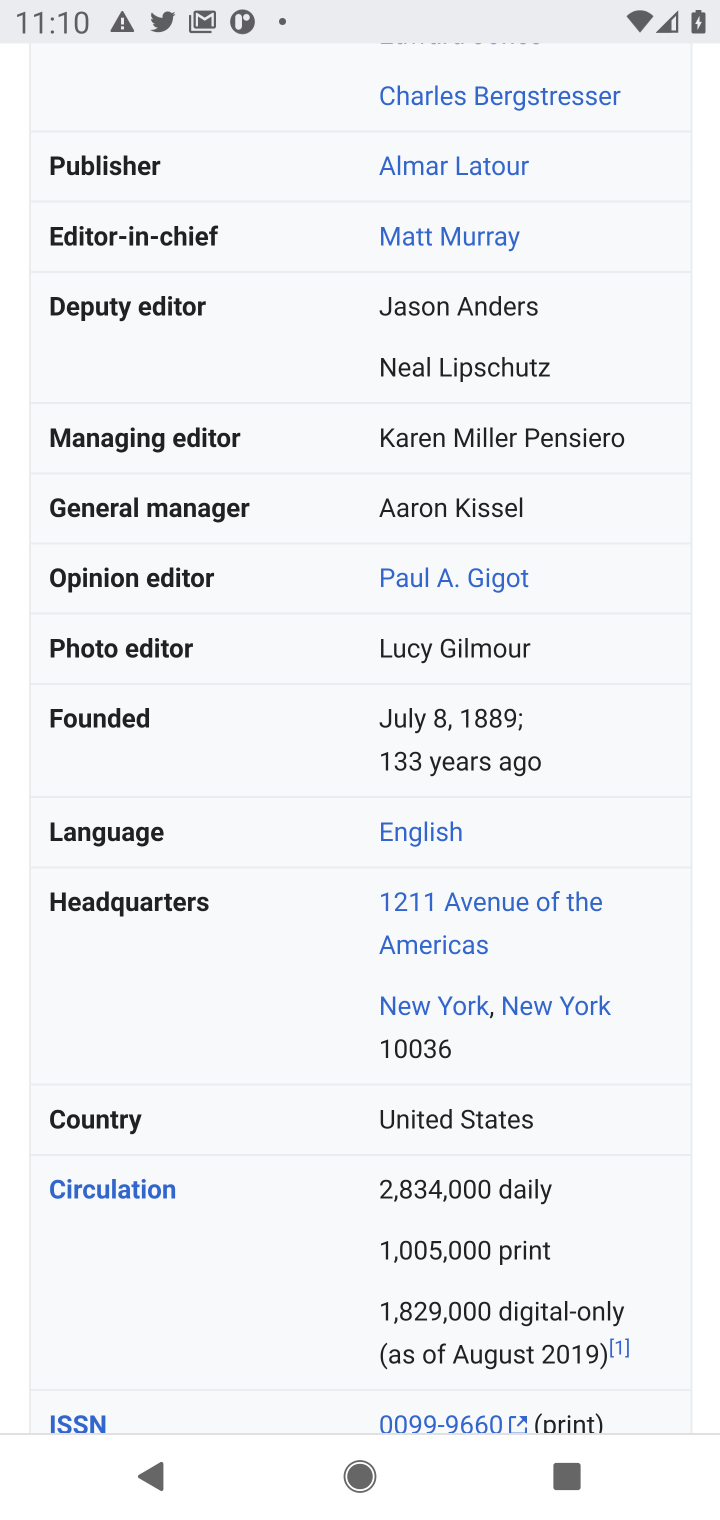
Step 29: drag from (215, 1158) to (311, 334)
Your task to perform on an android device: Play the latest video from the Wall Street Journal Image 30: 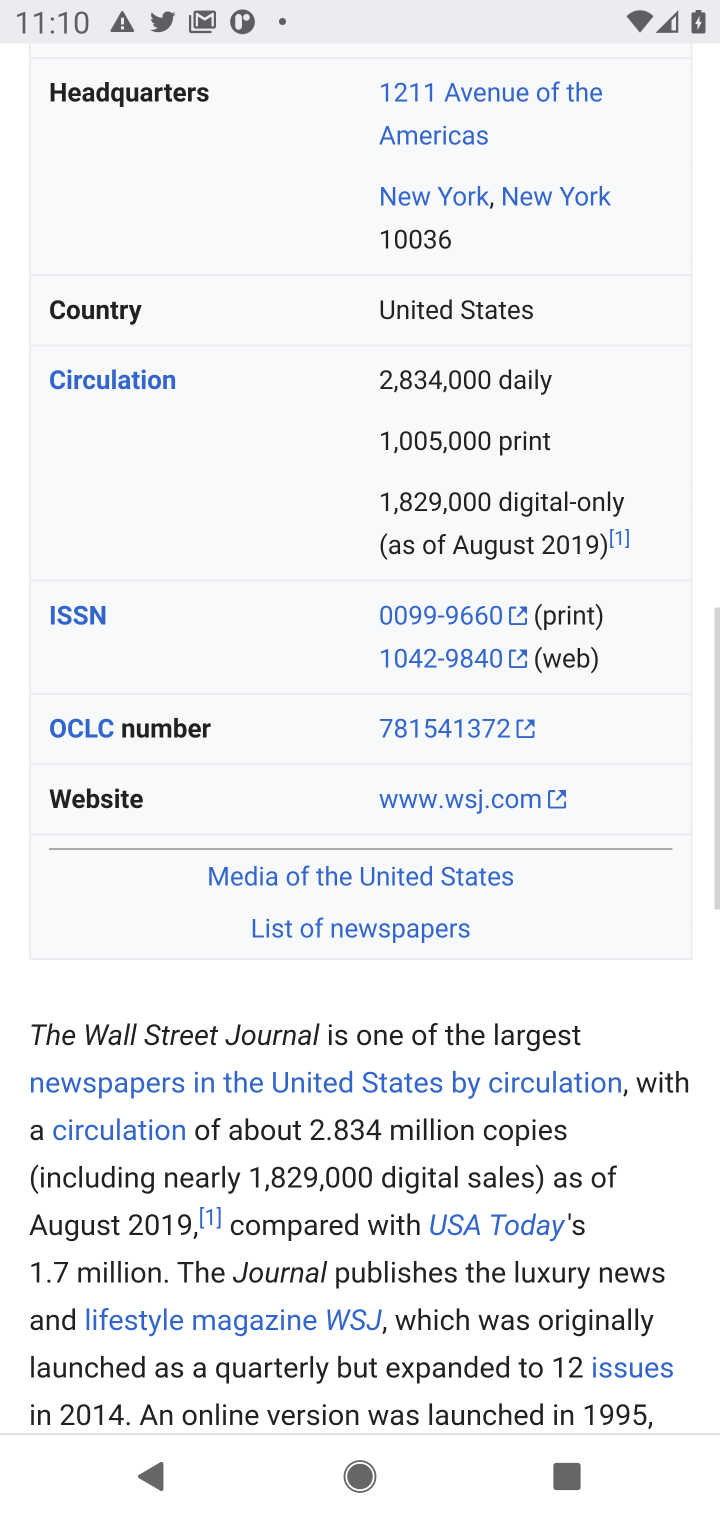
Step 30: drag from (282, 1296) to (279, 737)
Your task to perform on an android device: Play the latest video from the Wall Street Journal Image 31: 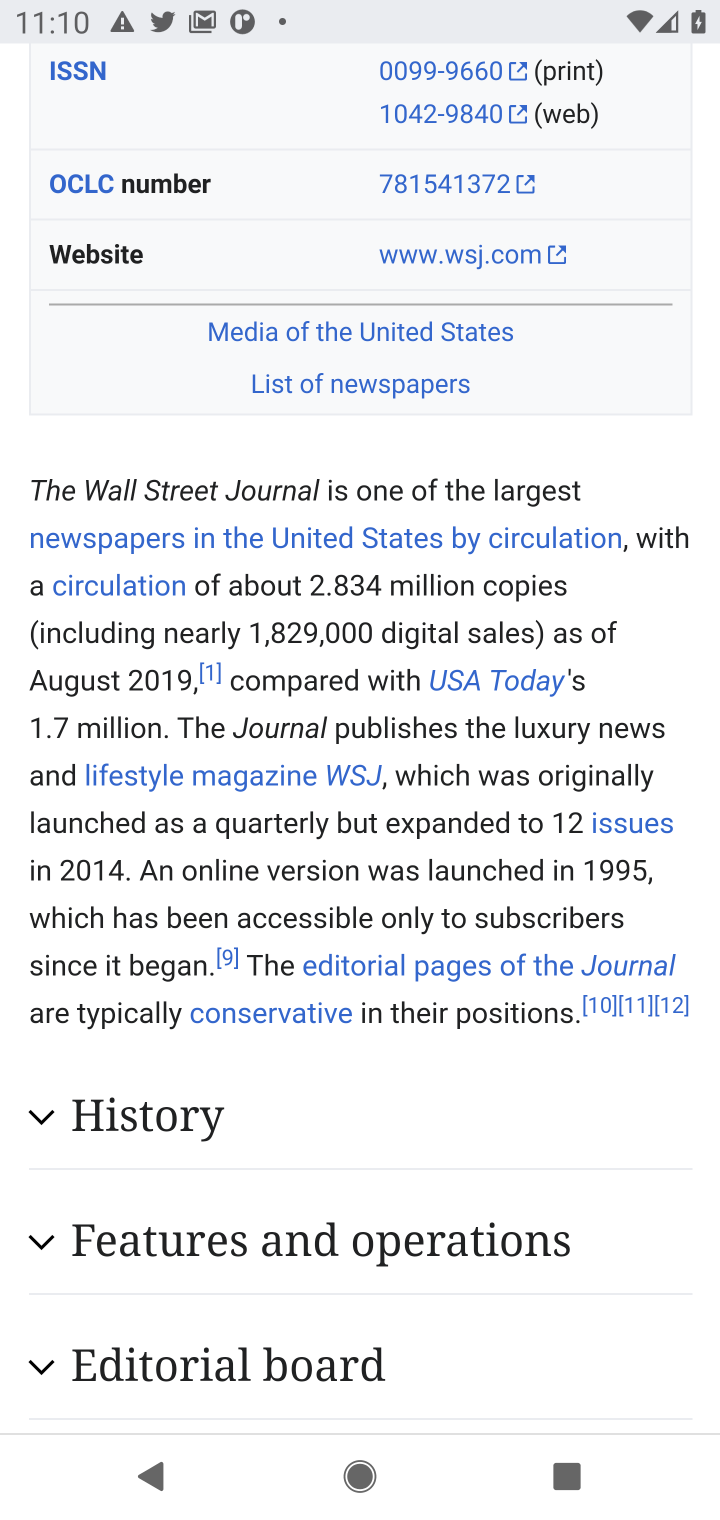
Step 31: drag from (285, 1225) to (350, 749)
Your task to perform on an android device: Play the latest video from the Wall Street Journal Image 32: 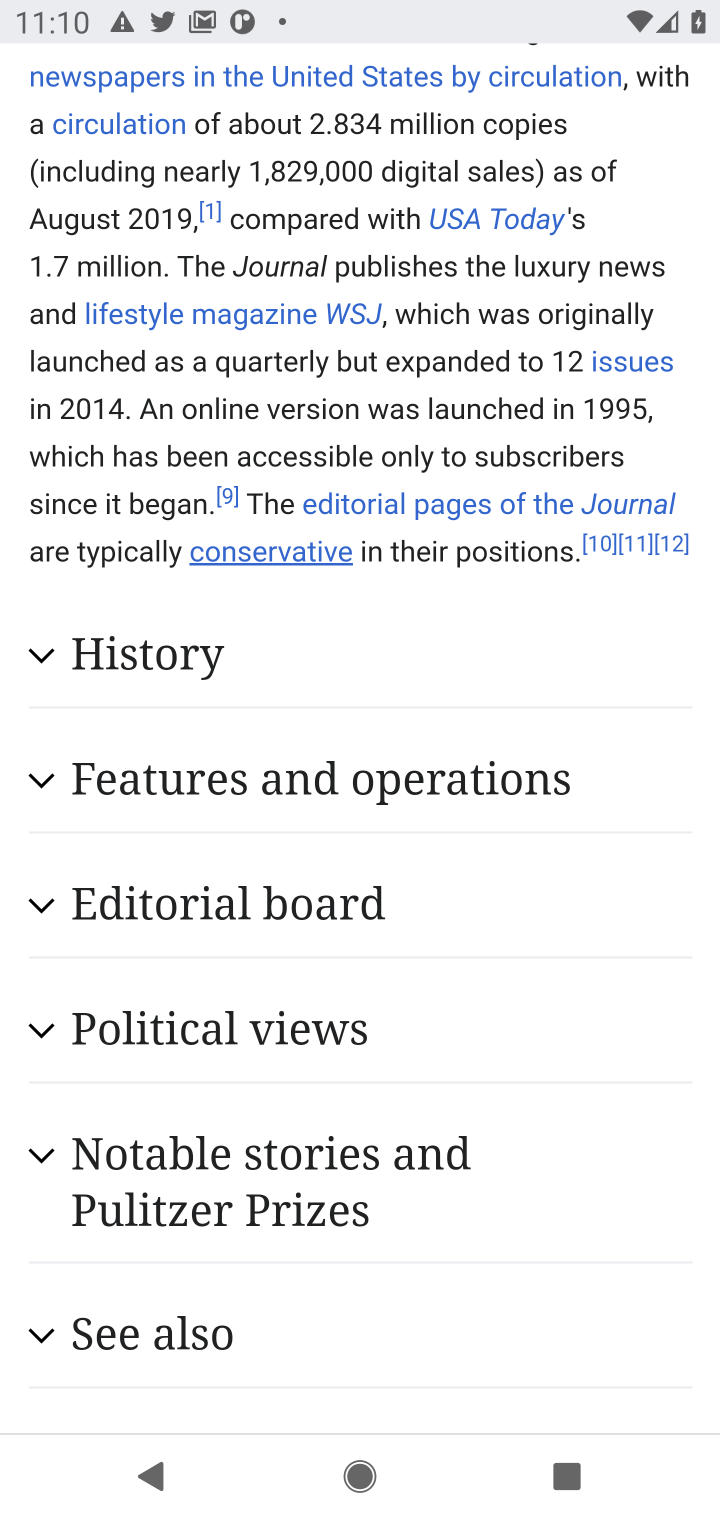
Step 32: click (42, 1327)
Your task to perform on an android device: Play the latest video from the Wall Street Journal Image 33: 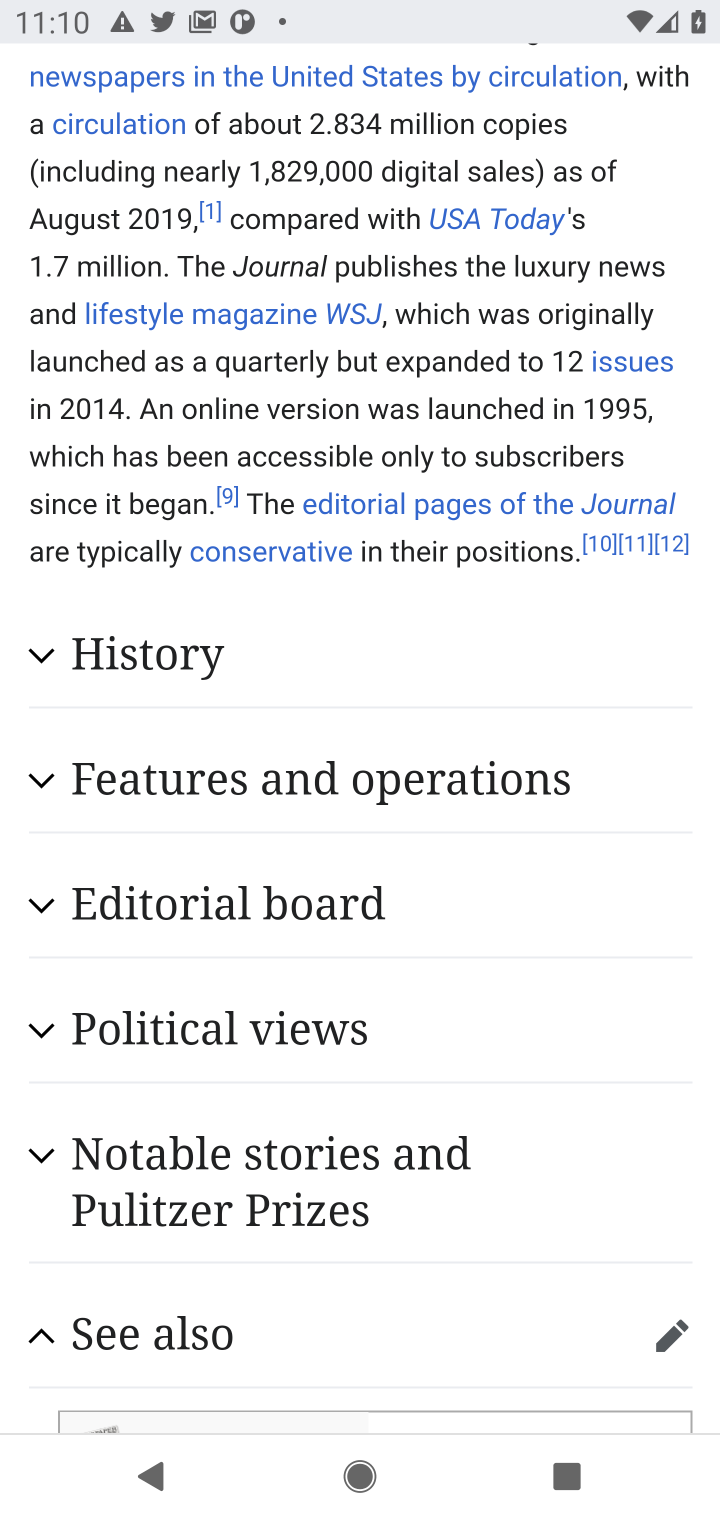
Step 33: drag from (388, 1348) to (361, 691)
Your task to perform on an android device: Play the latest video from the Wall Street Journal Image 34: 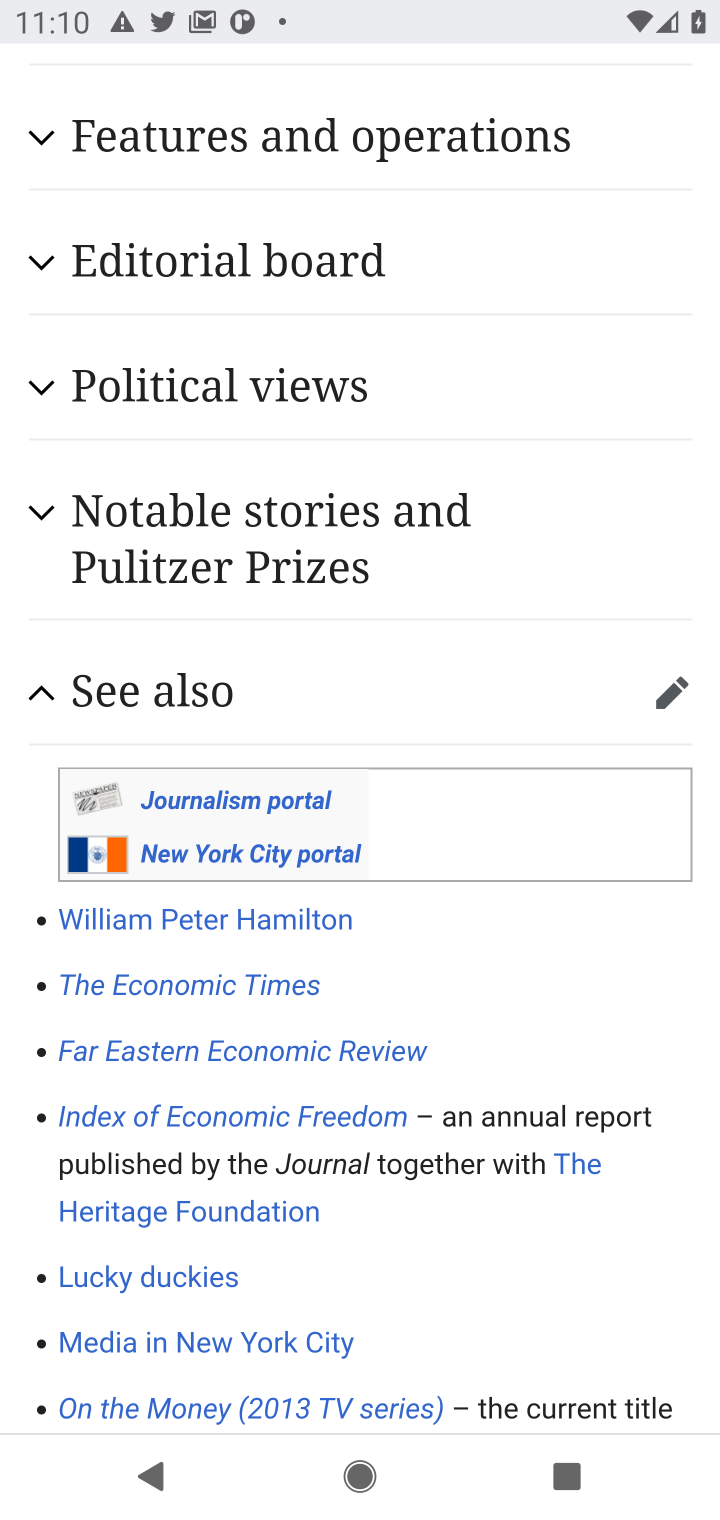
Step 34: drag from (262, 1126) to (295, 803)
Your task to perform on an android device: Play the latest video from the Wall Street Journal Image 35: 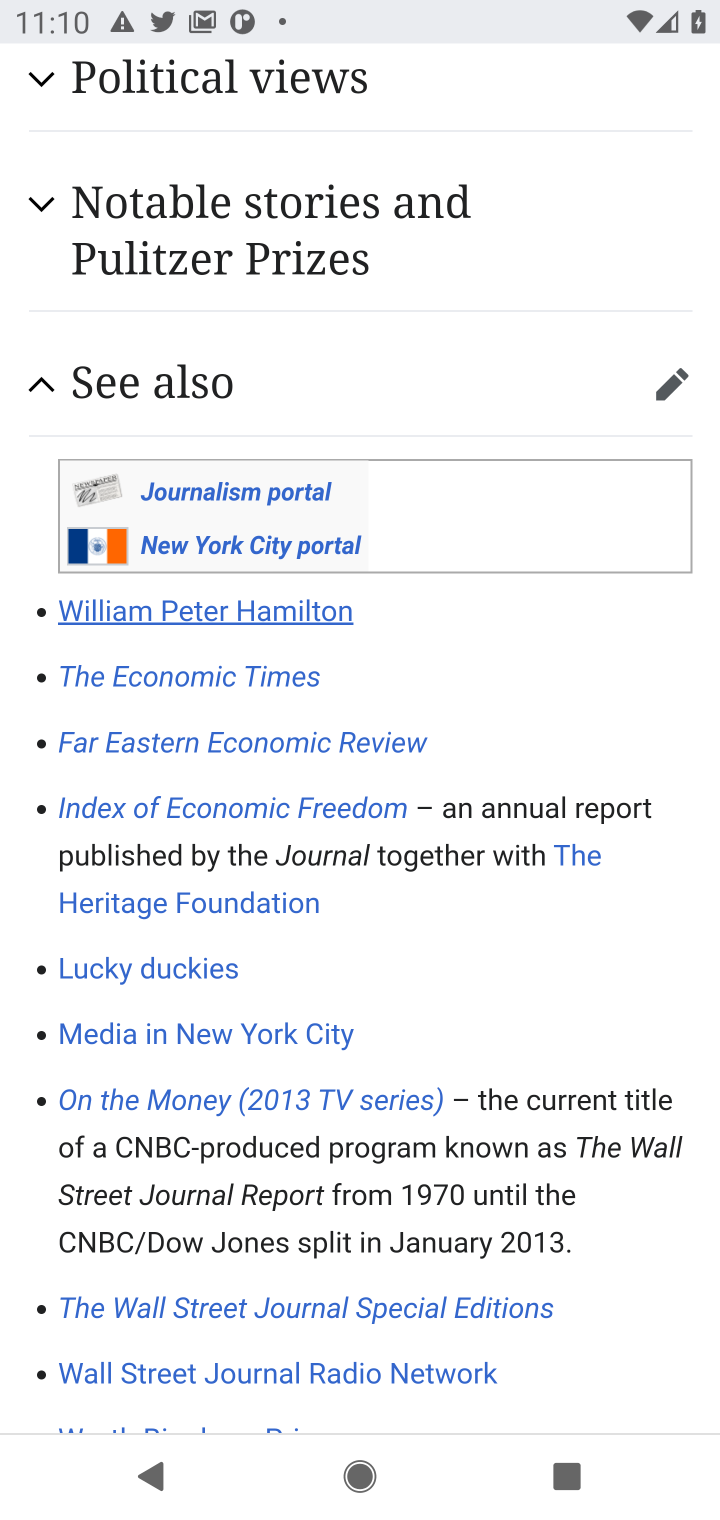
Step 35: drag from (297, 1271) to (310, 625)
Your task to perform on an android device: Play the latest video from the Wall Street Journal Image 36: 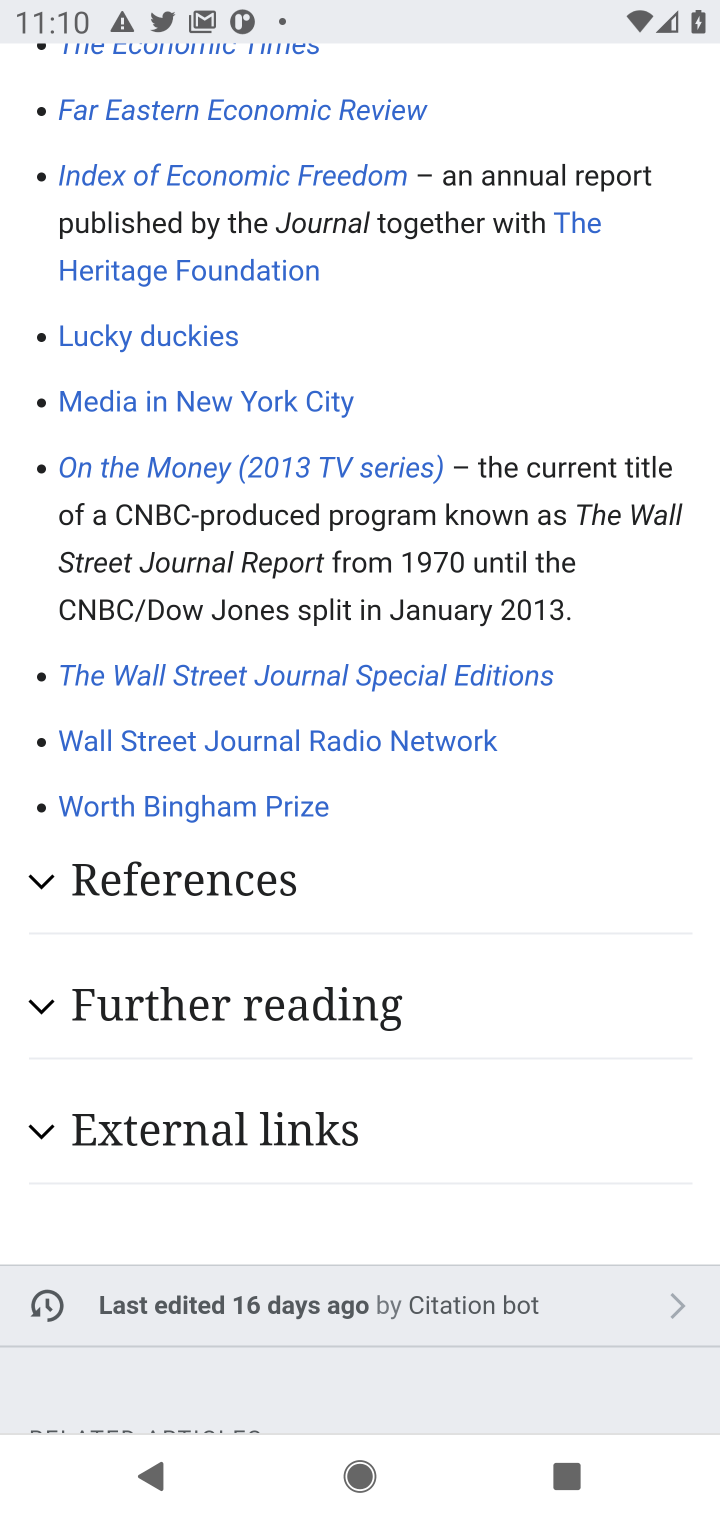
Step 36: click (295, 1130)
Your task to perform on an android device: Play the latest video from the Wall Street Journal Image 37: 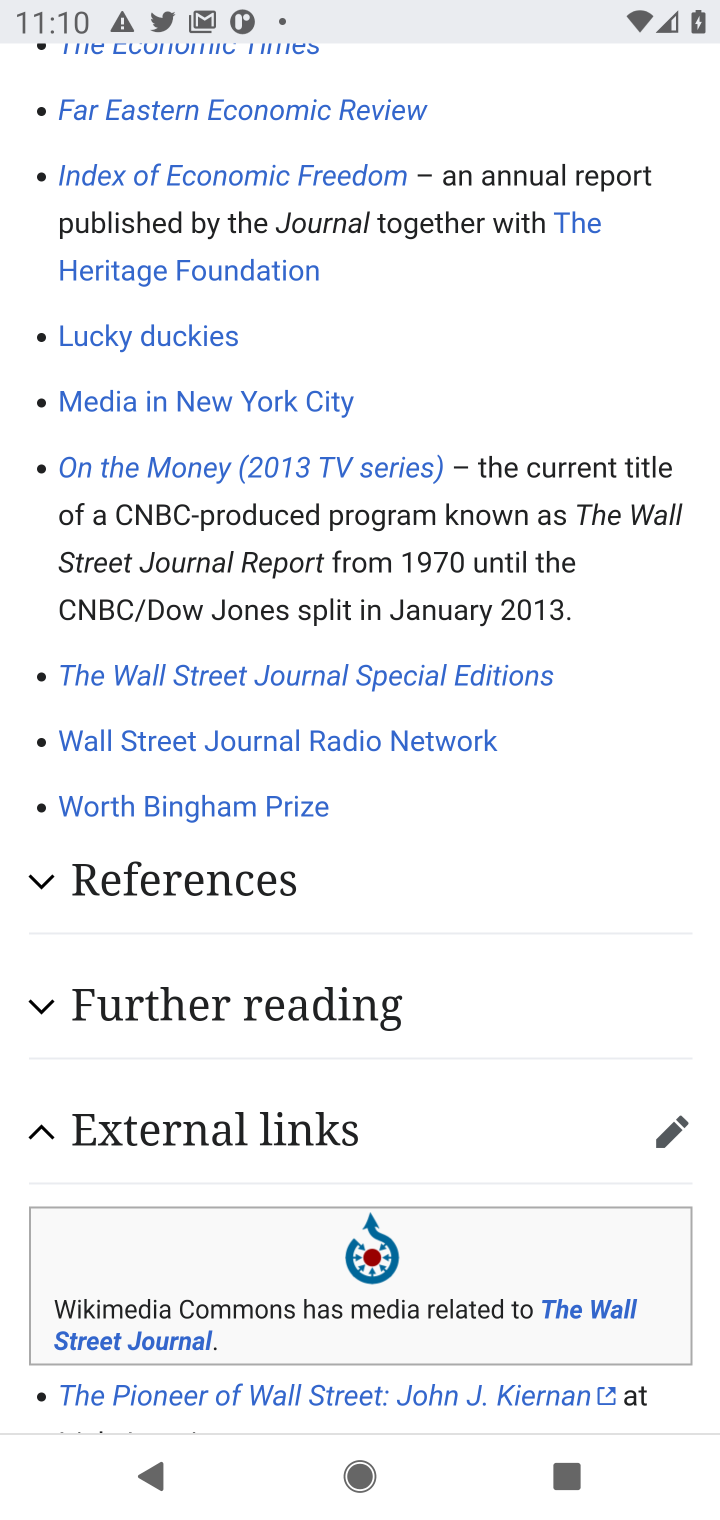
Step 37: drag from (190, 1084) to (192, 564)
Your task to perform on an android device: Play the latest video from the Wall Street Journal Image 38: 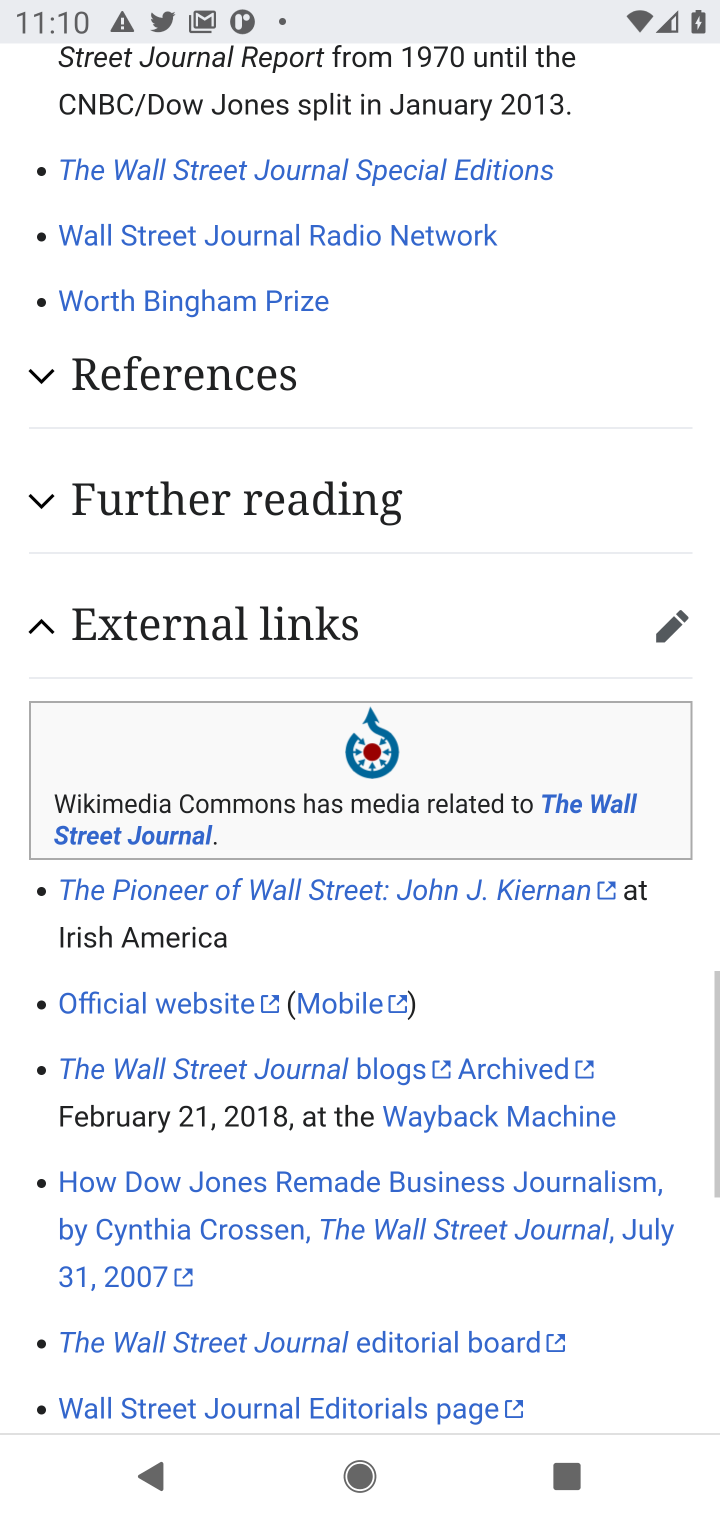
Step 38: drag from (249, 993) to (167, 337)
Your task to perform on an android device: Play the latest video from the Wall Street Journal Image 39: 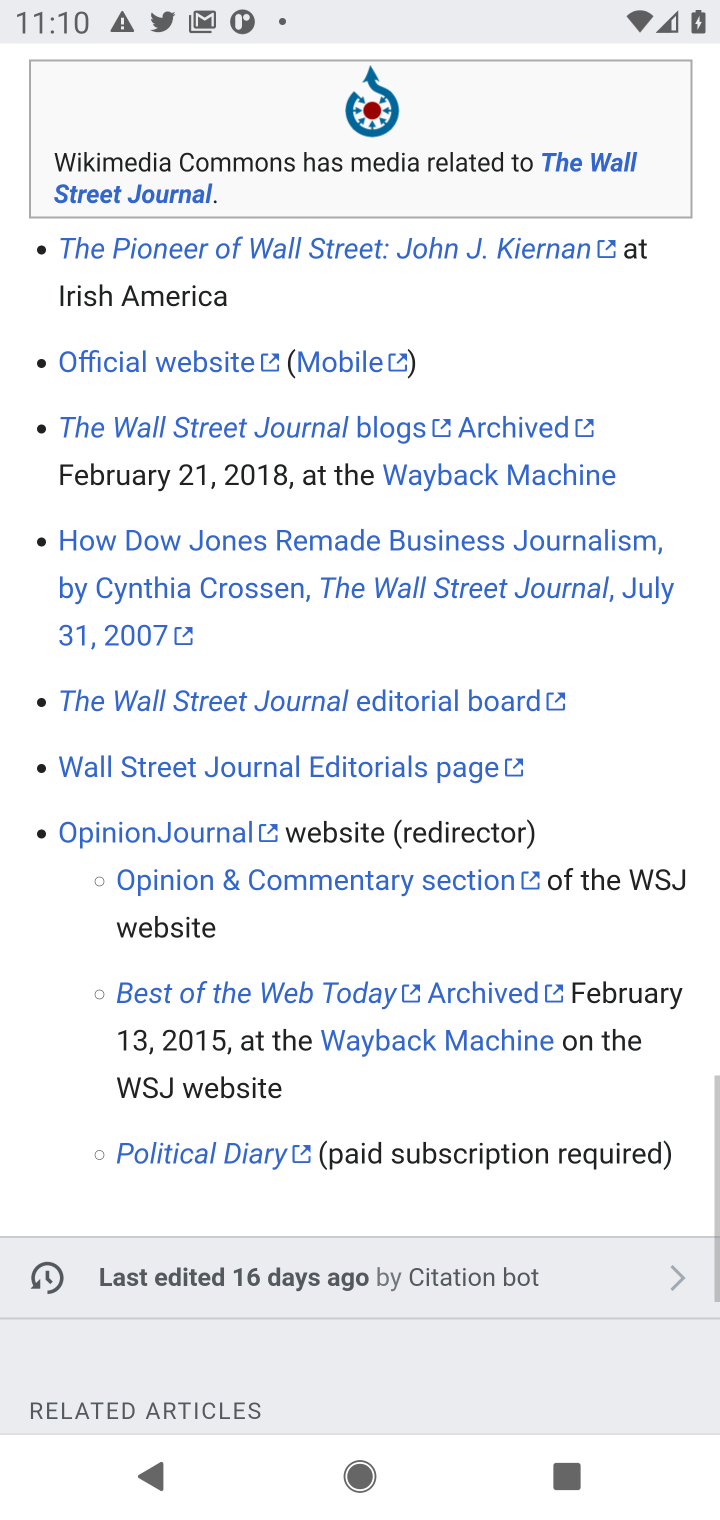
Step 39: drag from (361, 351) to (442, 1302)
Your task to perform on an android device: Play the latest video from the Wall Street Journal Image 40: 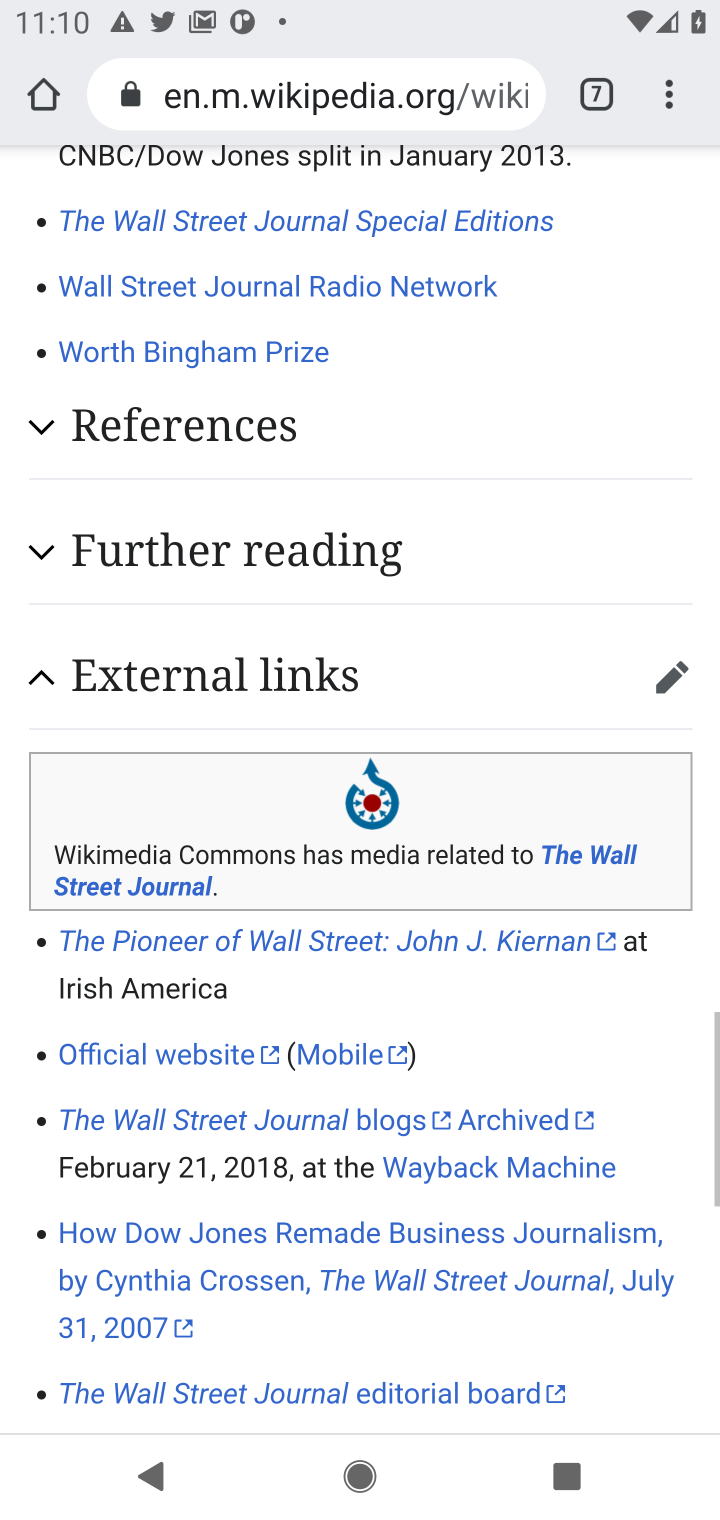
Step 40: drag from (248, 561) to (298, 1512)
Your task to perform on an android device: Play the latest video from the Wall Street Journal Image 41: 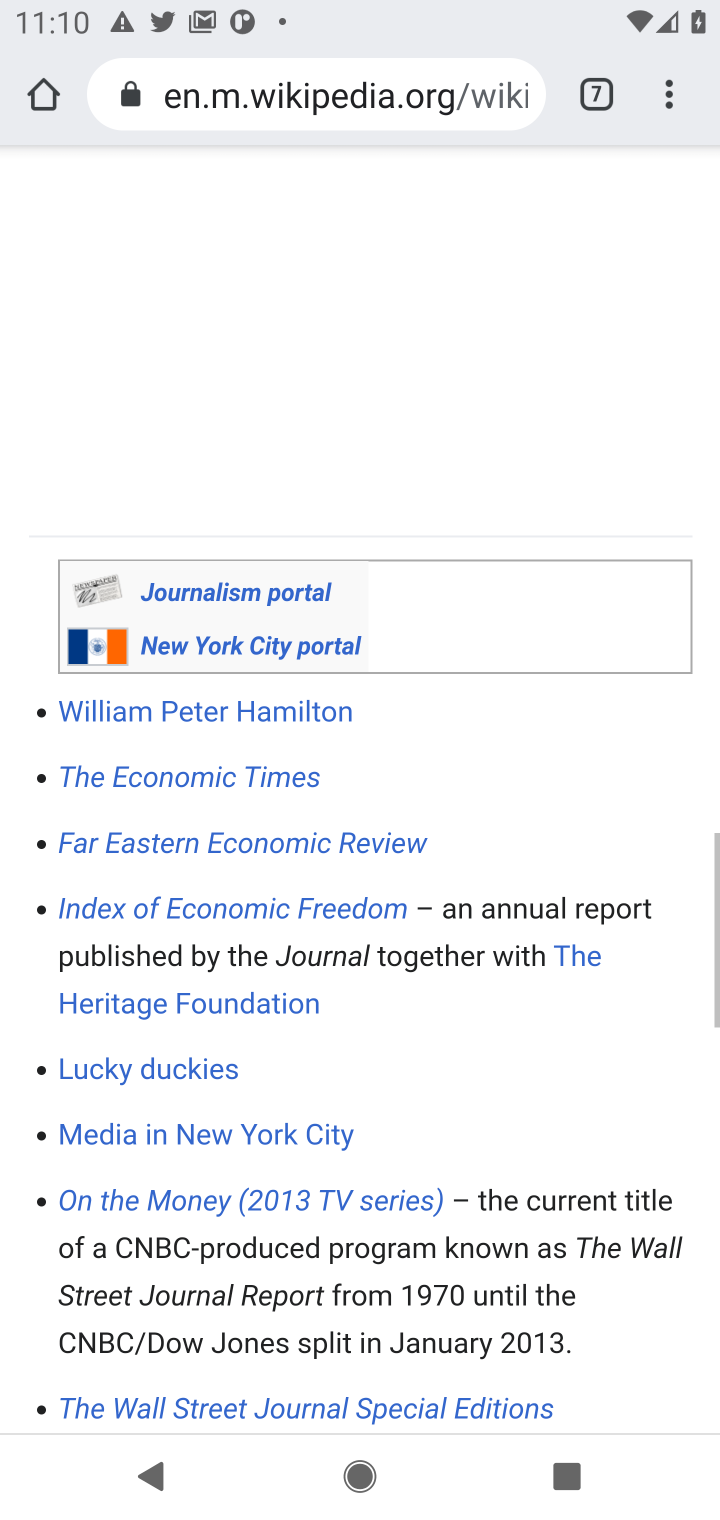
Step 41: drag from (256, 204) to (285, 961)
Your task to perform on an android device: Play the latest video from the Wall Street Journal Image 42: 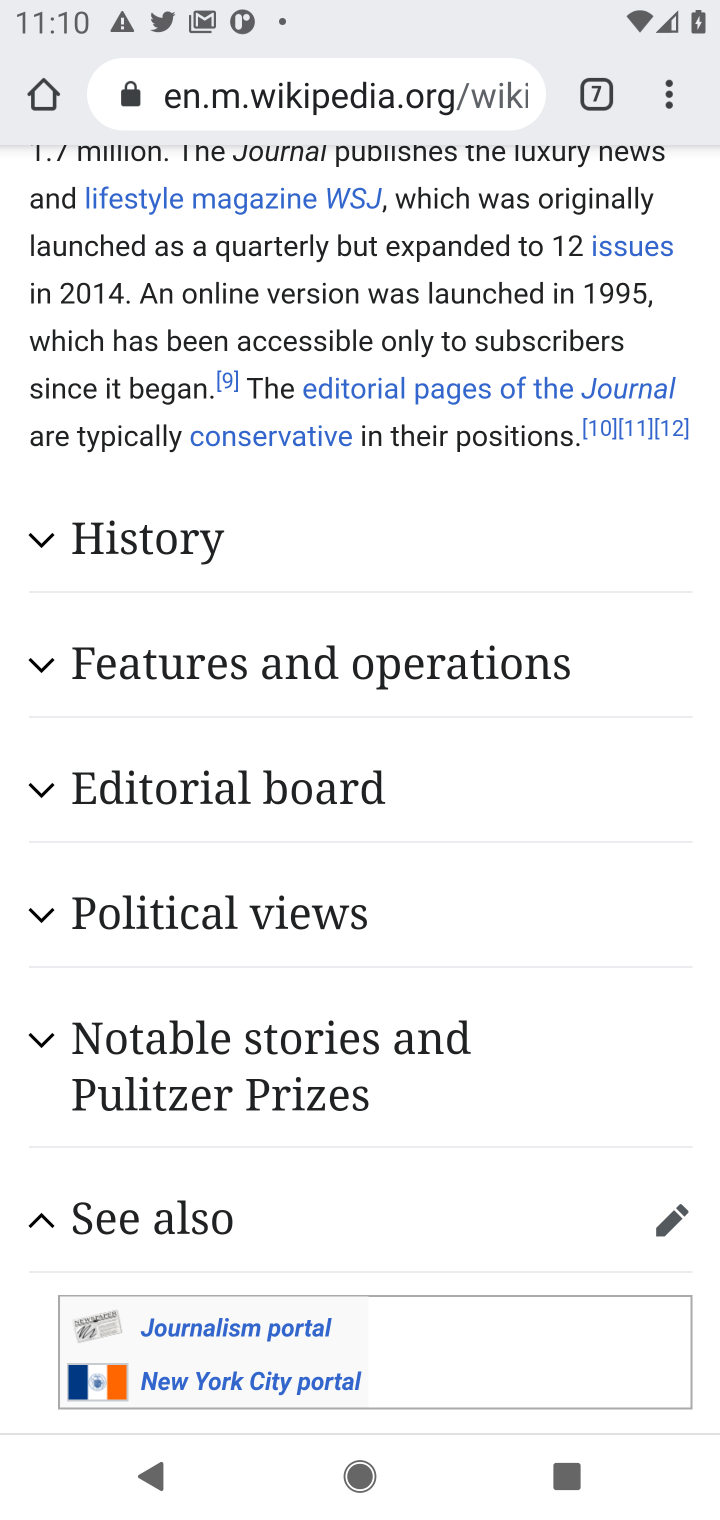
Step 42: click (346, 95)
Your task to perform on an android device: Play the latest video from the Wall Street Journal Image 43: 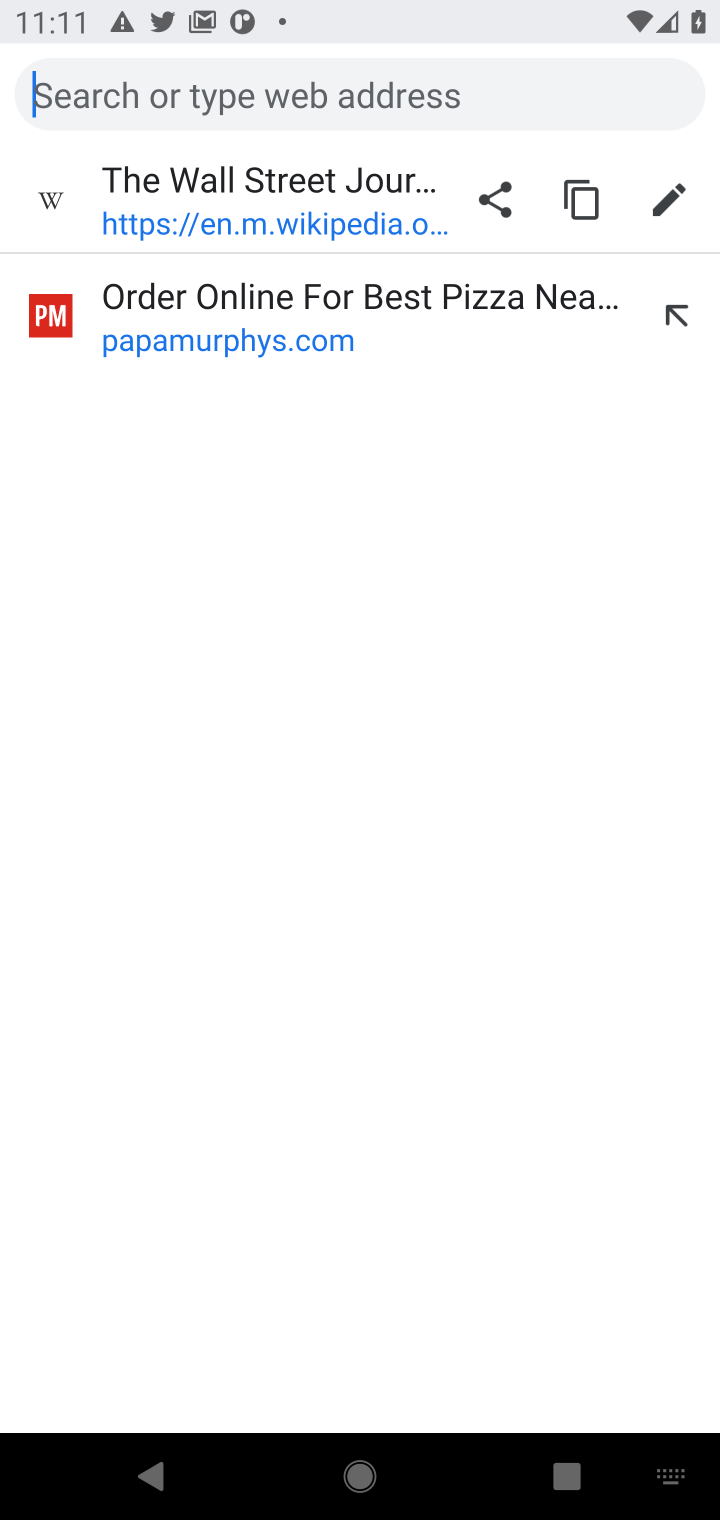
Step 43: type "latest video"
Your task to perform on an android device: Play the latest video from the Wall Street Journal Image 44: 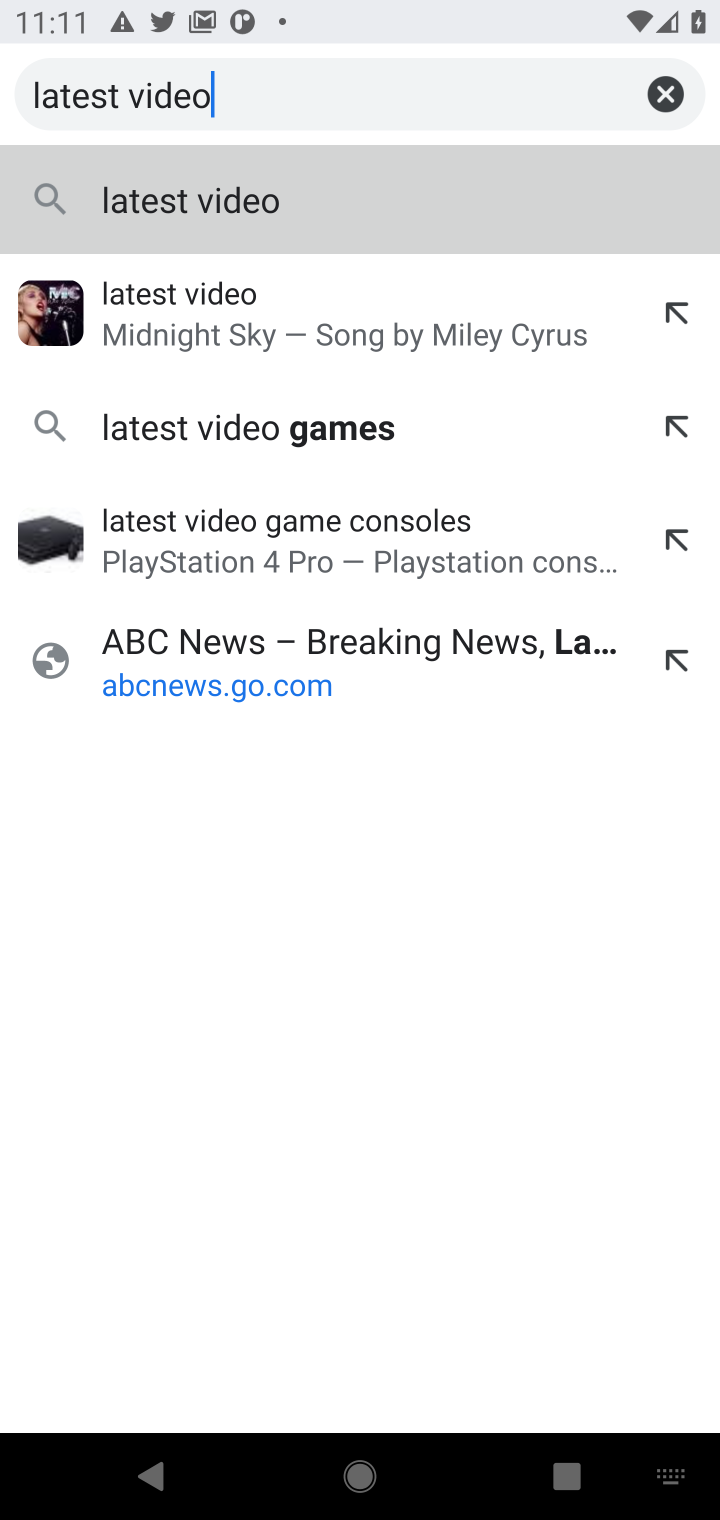
Step 44: type ""
Your task to perform on an android device: Play the latest video from the Wall Street Journal Image 45: 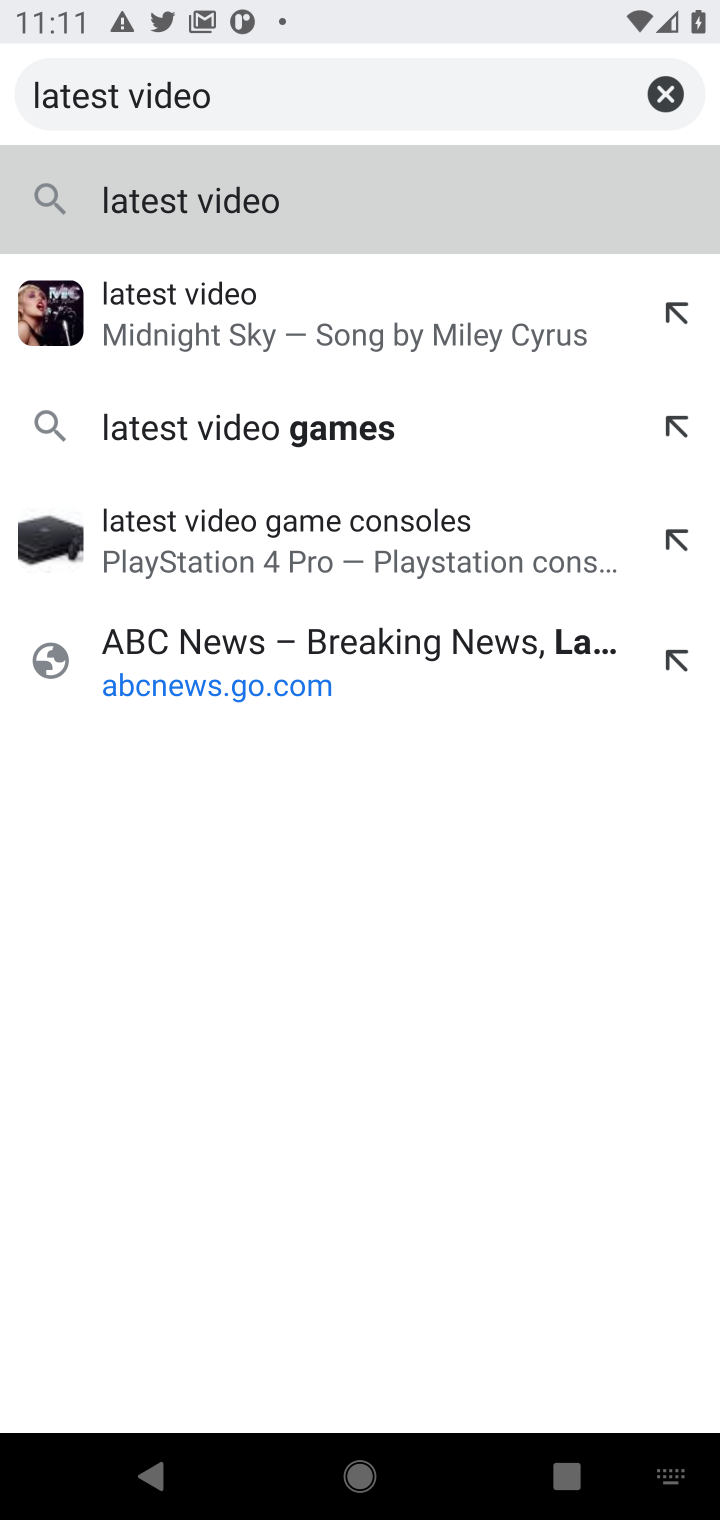
Step 45: click (177, 293)
Your task to perform on an android device: Play the latest video from the Wall Street Journal Image 46: 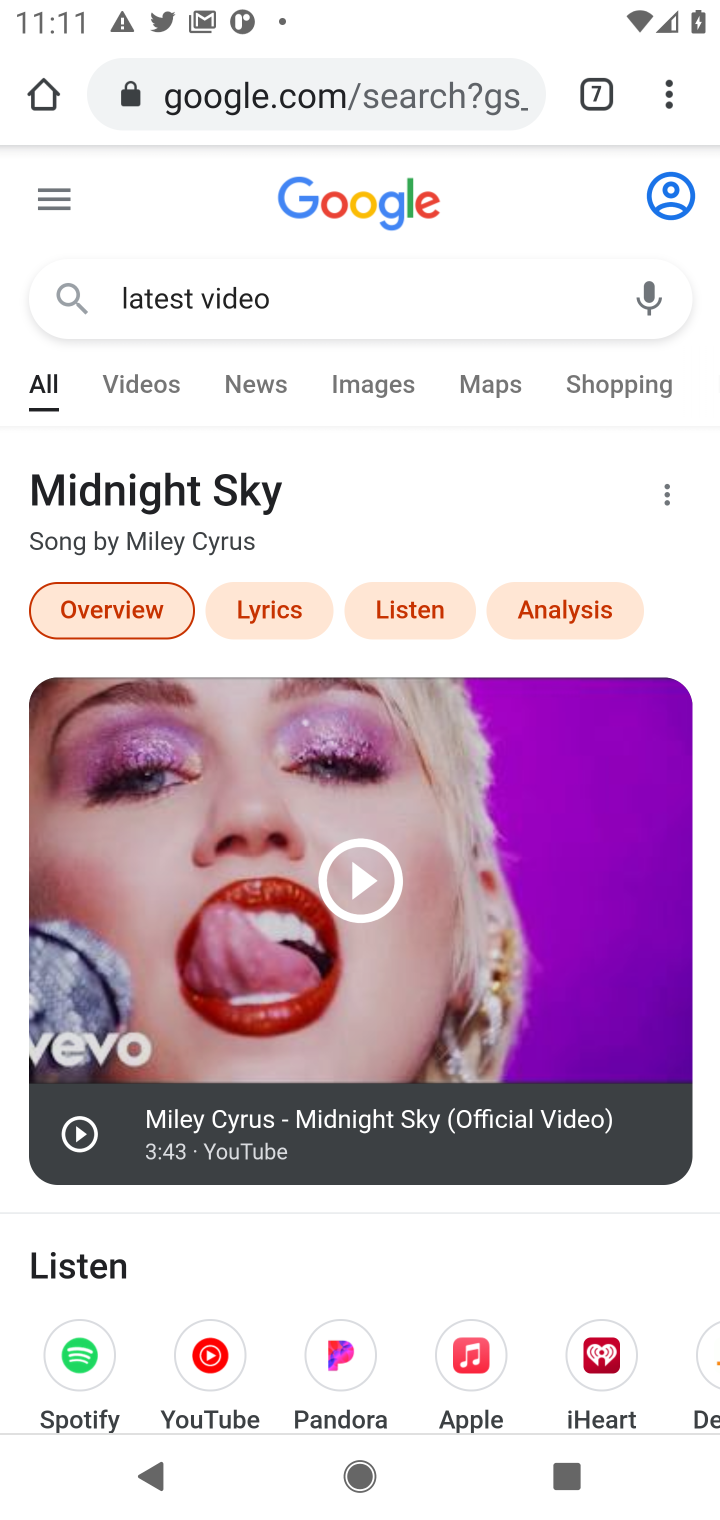
Step 46: click (312, 290)
Your task to perform on an android device: Play the latest video from the Wall Street Journal Image 47: 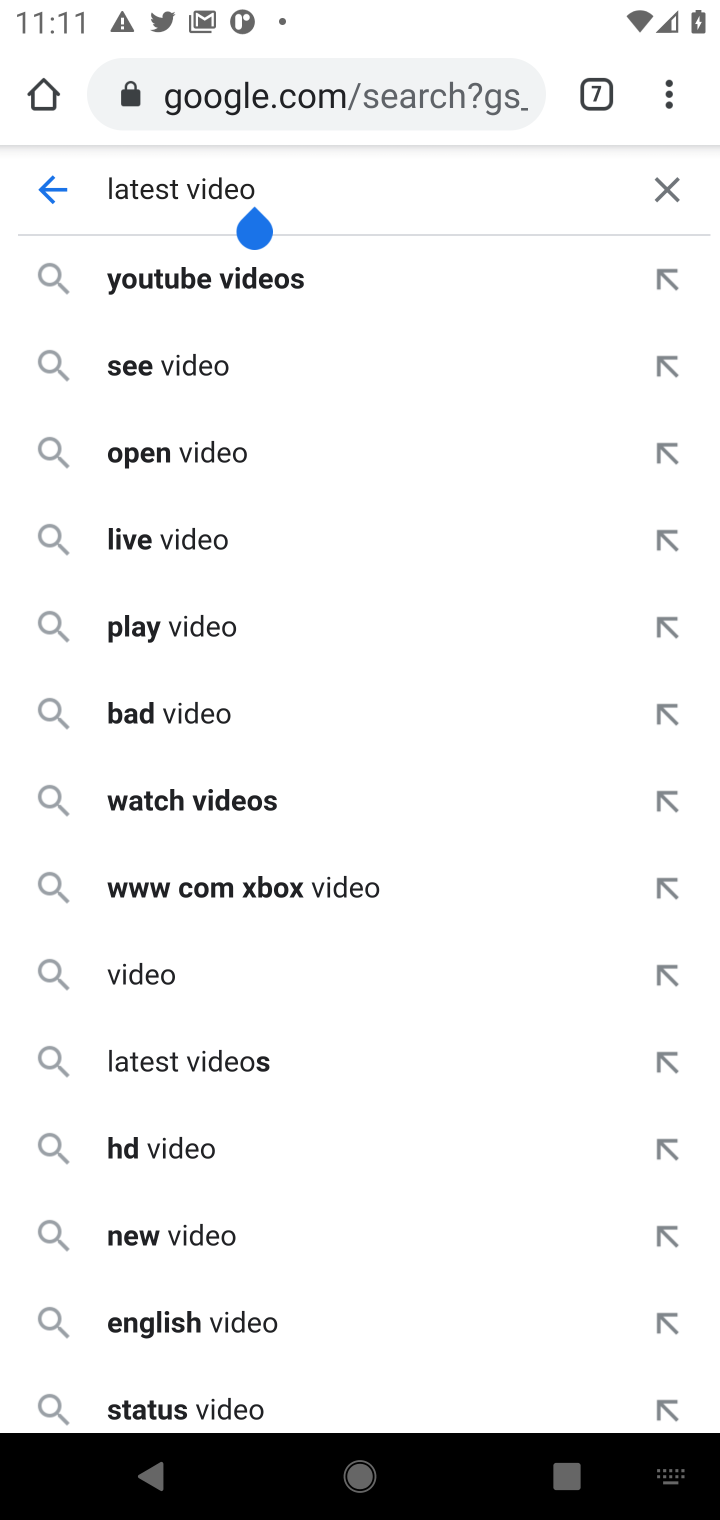
Step 47: type " wall street journal"
Your task to perform on an android device: Play the latest video from the Wall Street Journal Image 48: 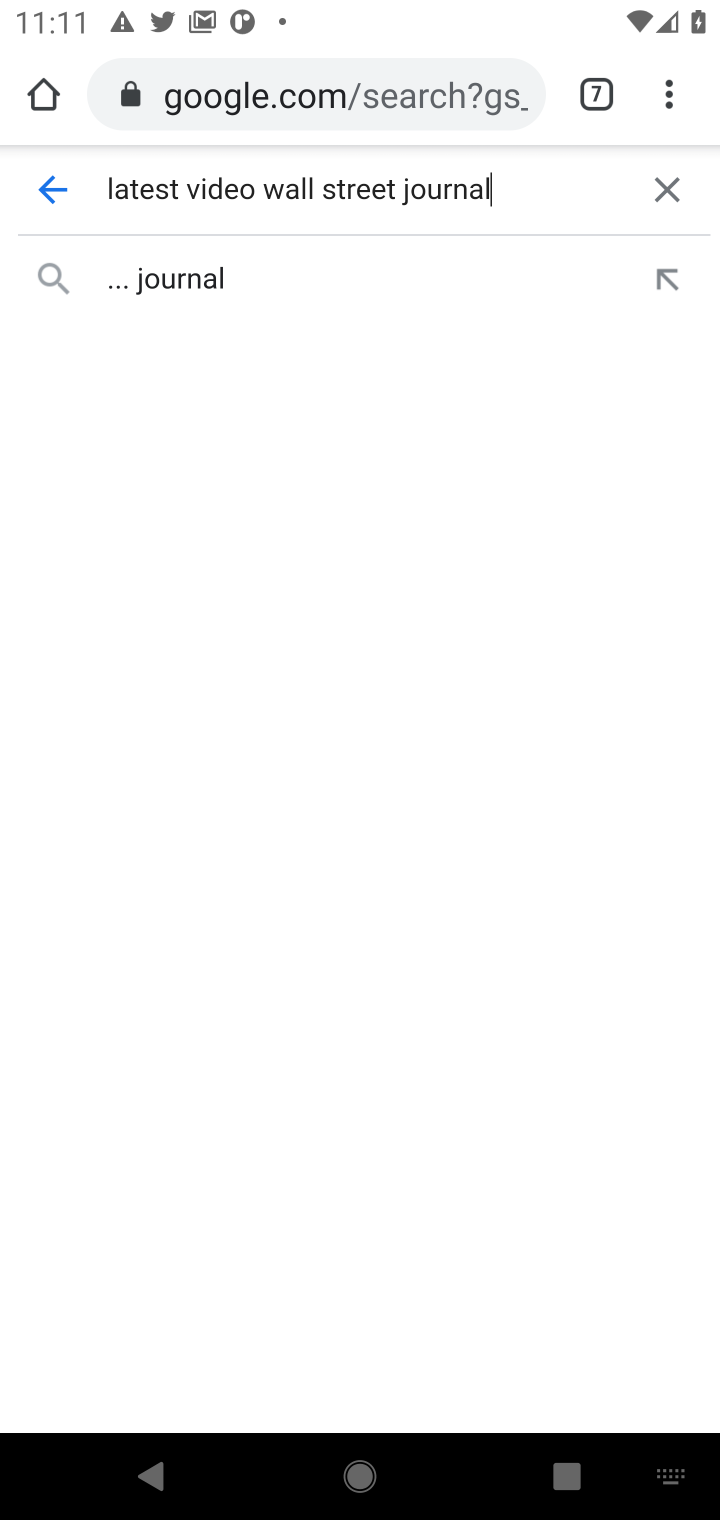
Step 48: type ""
Your task to perform on an android device: Play the latest video from the Wall Street Journal Image 49: 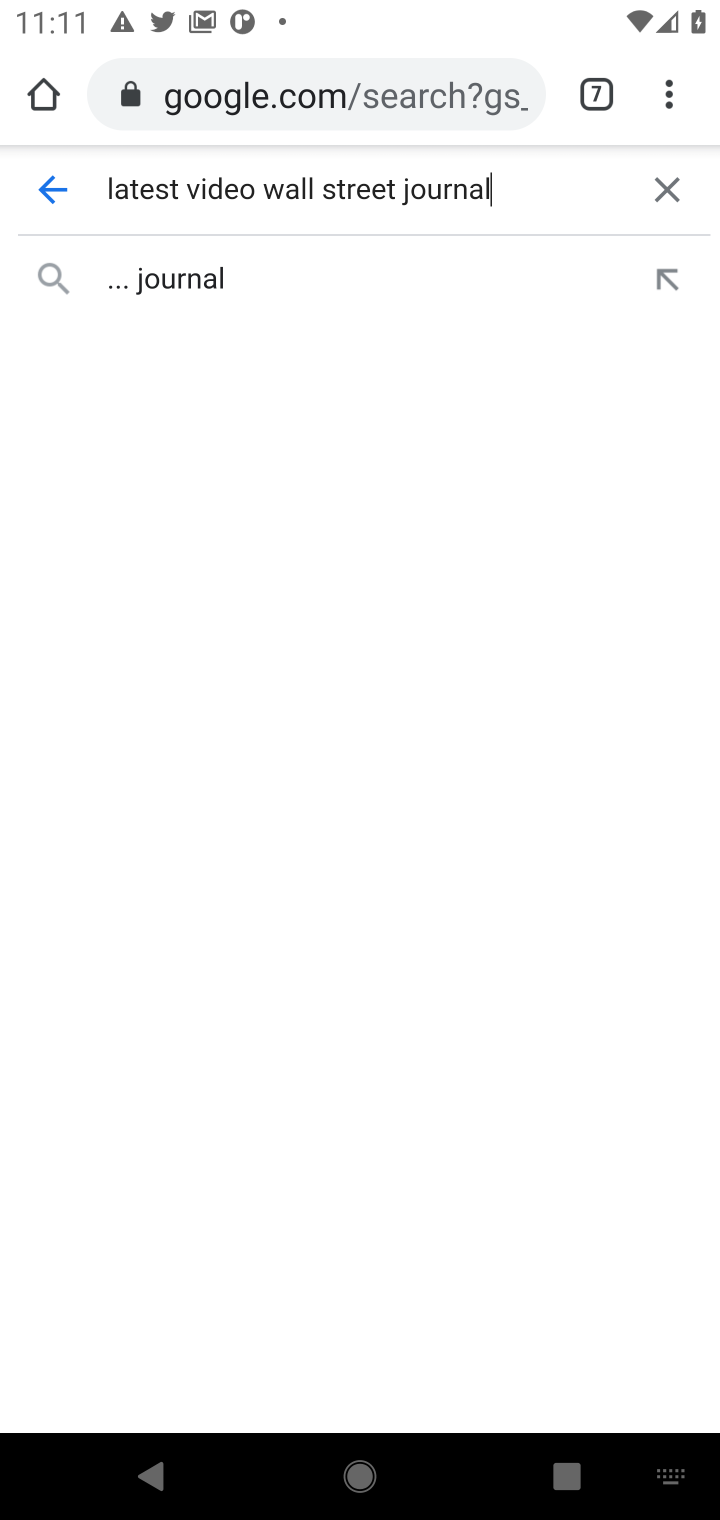
Step 49: click (168, 272)
Your task to perform on an android device: Play the latest video from the Wall Street Journal Image 50: 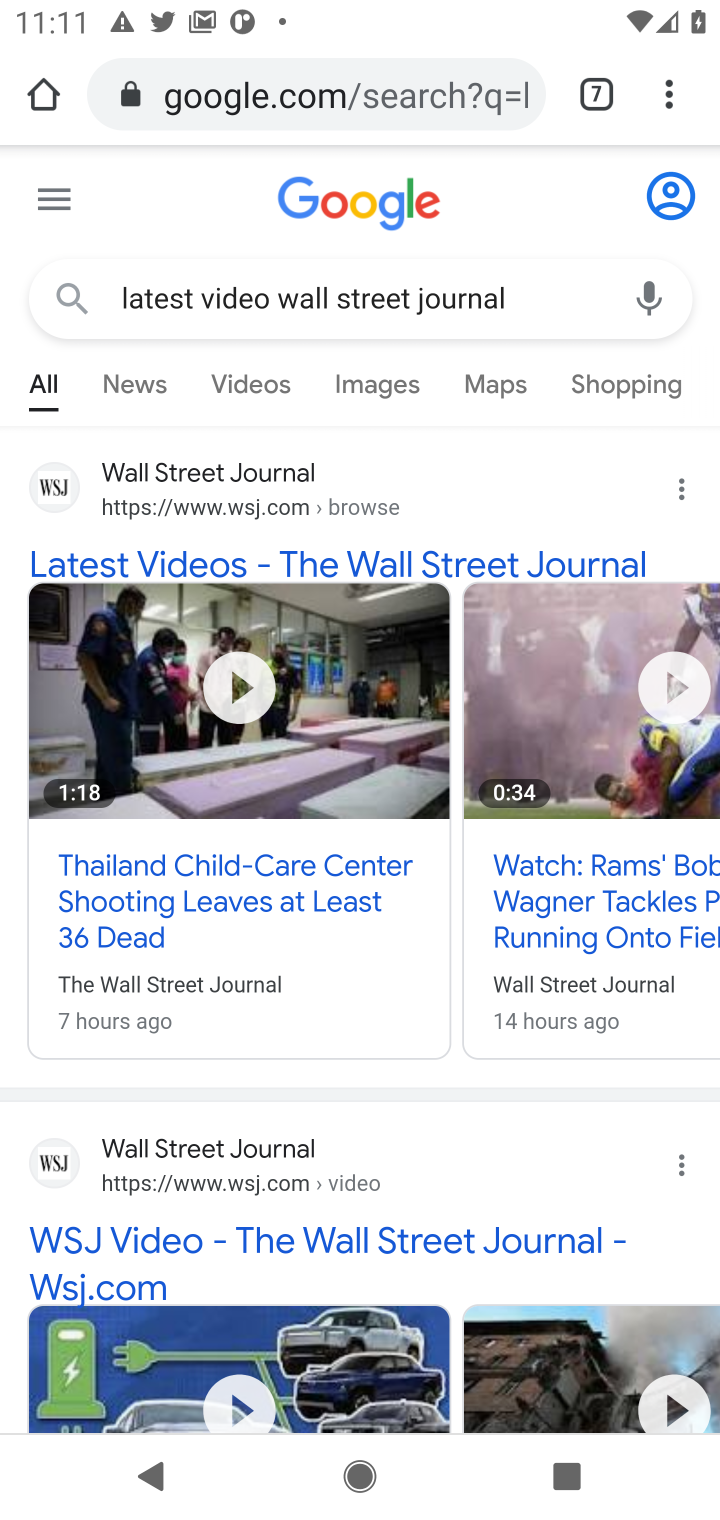
Step 50: task complete